Your task to perform on an android device: Add "razer deathadder" to the cart on bestbuy.com, then select checkout. Image 0: 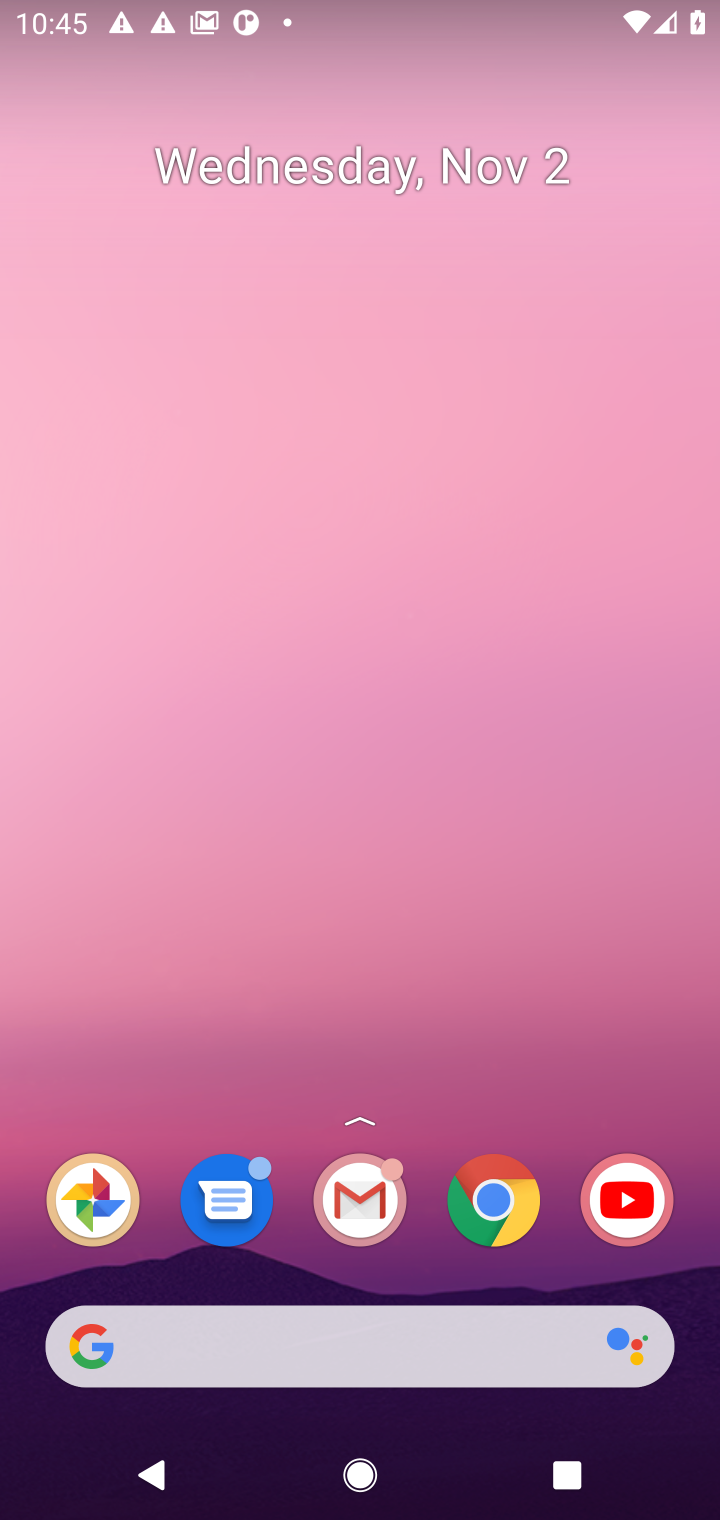
Step 0: press home button
Your task to perform on an android device: Add "razer deathadder" to the cart on bestbuy.com, then select checkout. Image 1: 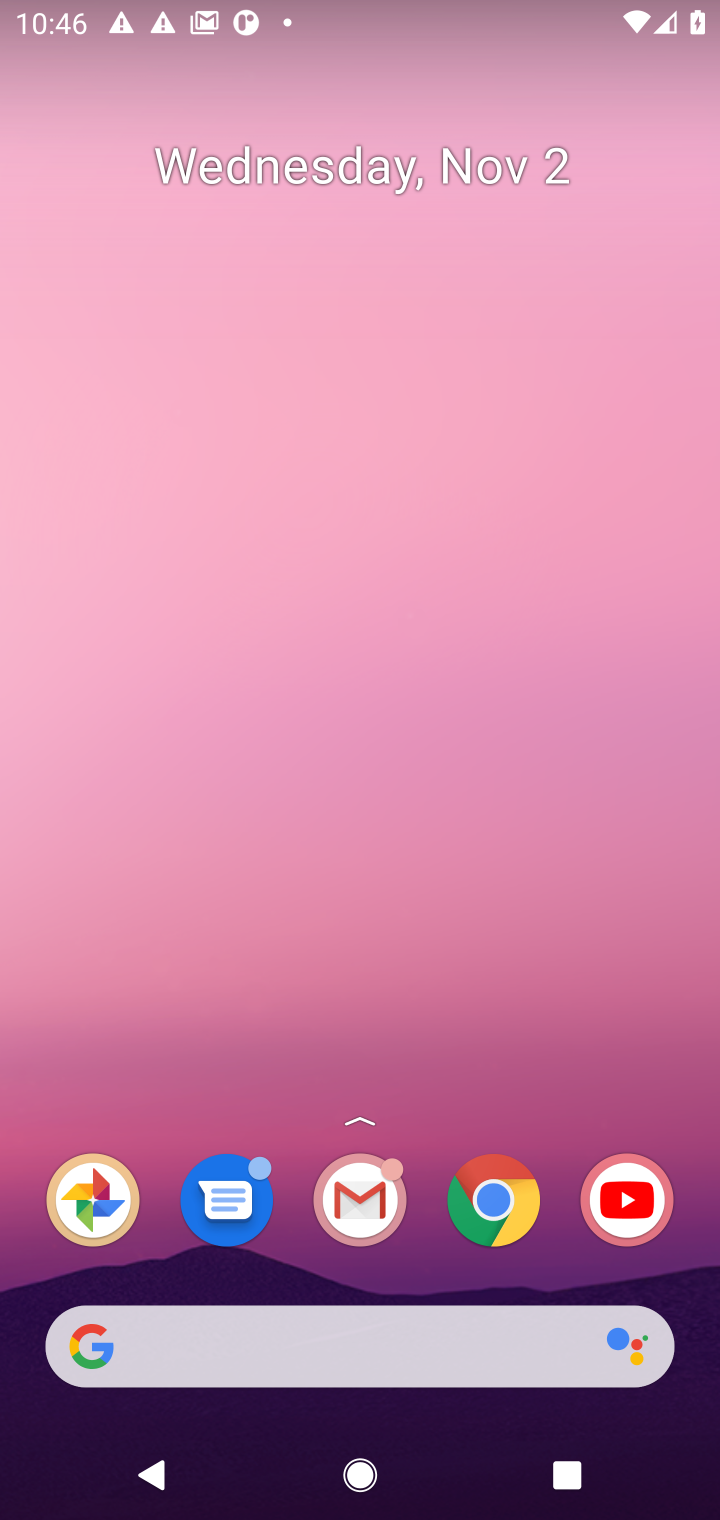
Step 1: click (492, 1195)
Your task to perform on an android device: Add "razer deathadder" to the cart on bestbuy.com, then select checkout. Image 2: 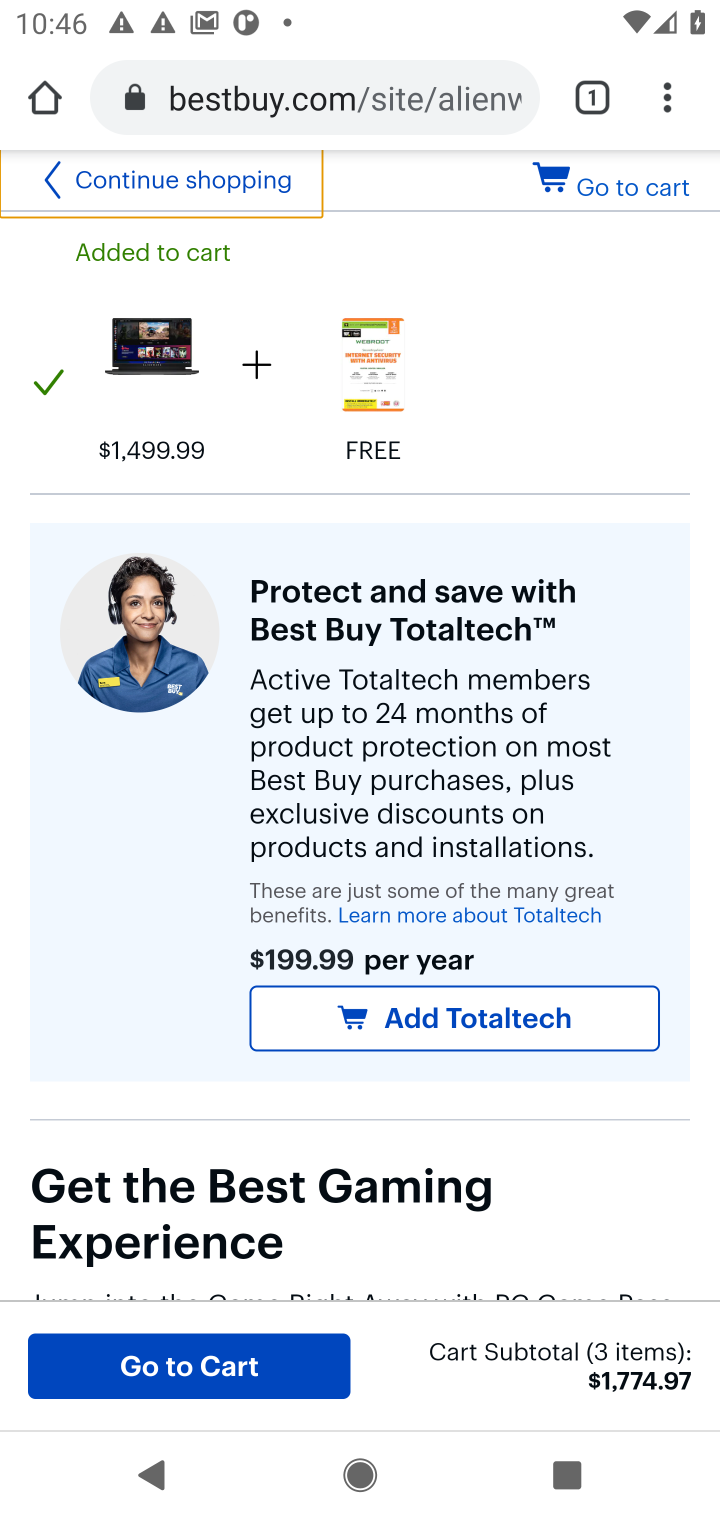
Step 2: drag from (502, 327) to (703, 267)
Your task to perform on an android device: Add "razer deathadder" to the cart on bestbuy.com, then select checkout. Image 3: 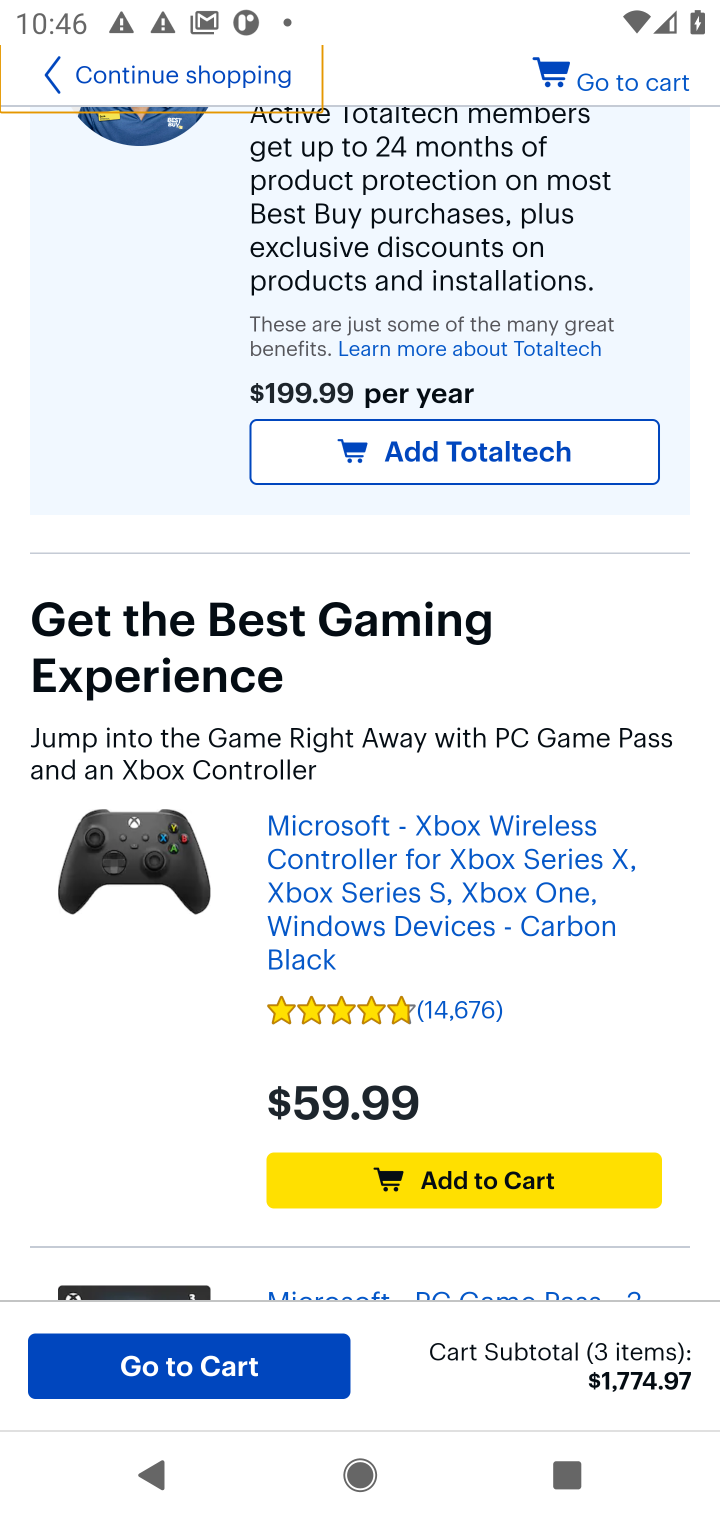
Step 3: drag from (533, 203) to (615, 943)
Your task to perform on an android device: Add "razer deathadder" to the cart on bestbuy.com, then select checkout. Image 4: 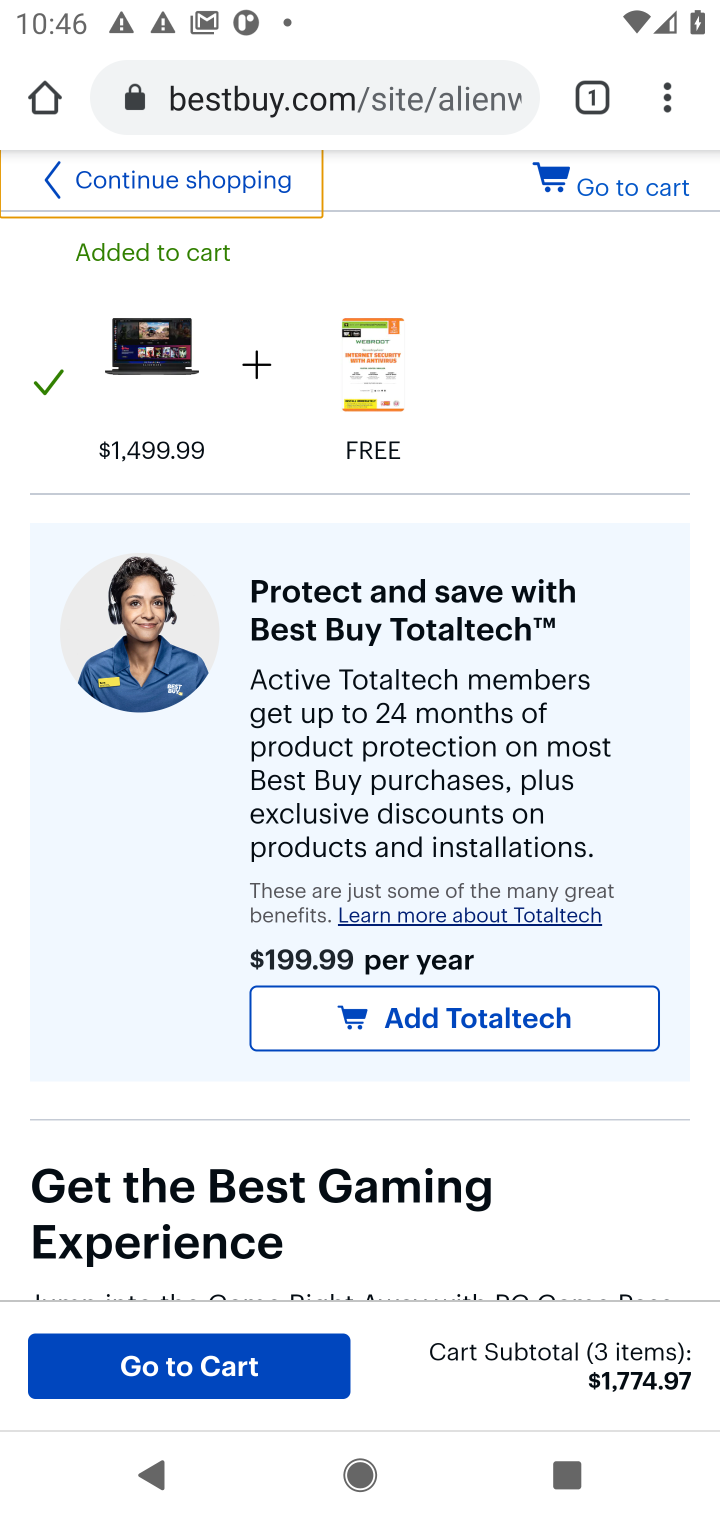
Step 4: drag from (462, 291) to (412, 953)
Your task to perform on an android device: Add "razer deathadder" to the cart on bestbuy.com, then select checkout. Image 5: 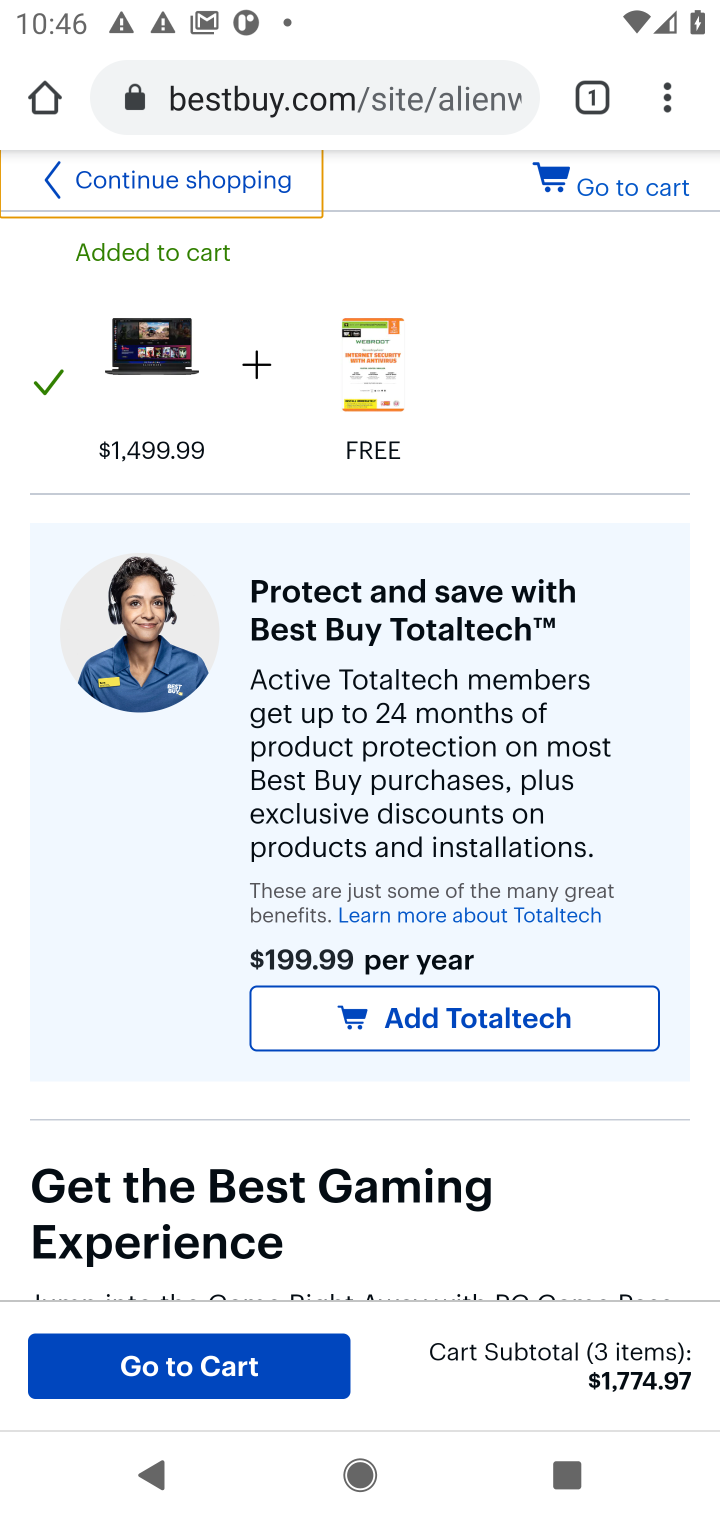
Step 5: drag from (454, 284) to (301, 1117)
Your task to perform on an android device: Add "razer deathadder" to the cart on bestbuy.com, then select checkout. Image 6: 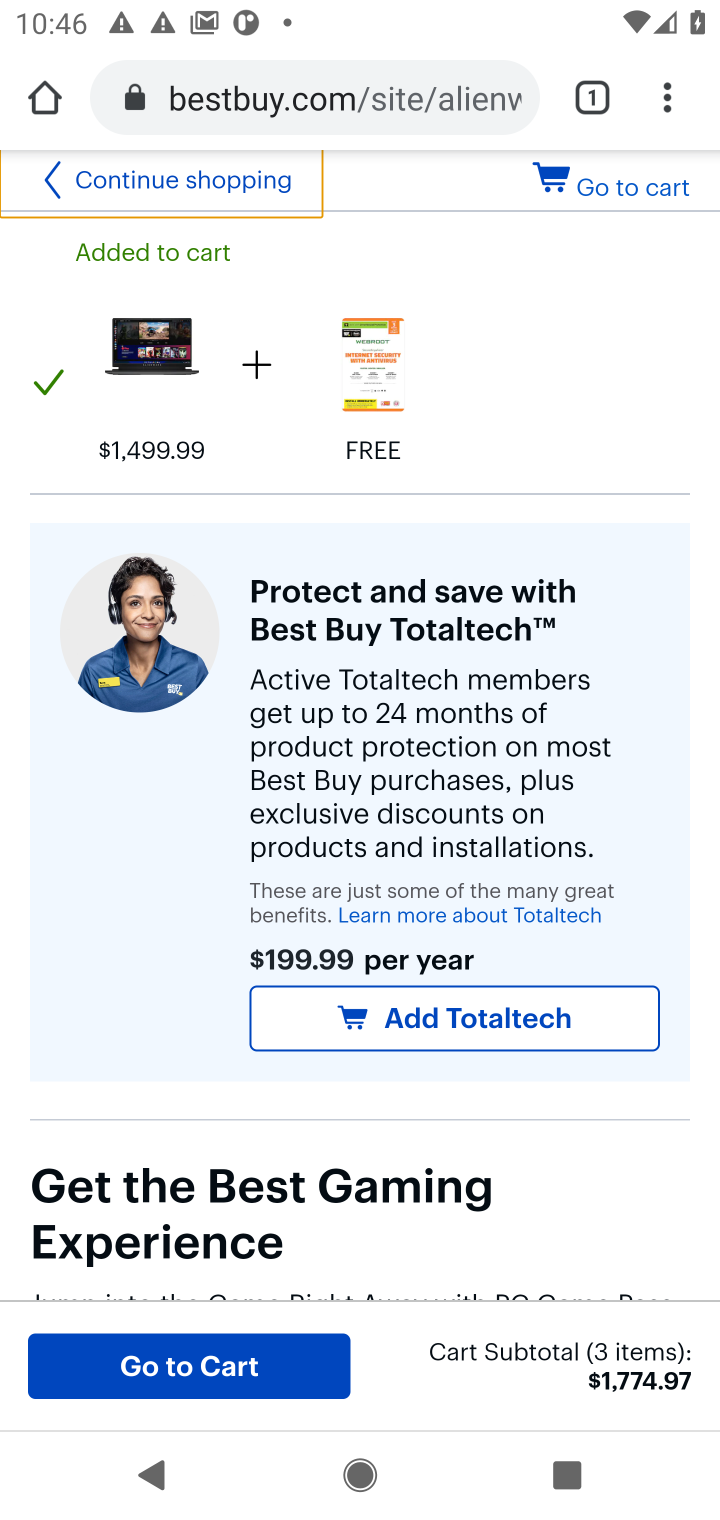
Step 6: click (419, 91)
Your task to perform on an android device: Add "razer deathadder" to the cart on bestbuy.com, then select checkout. Image 7: 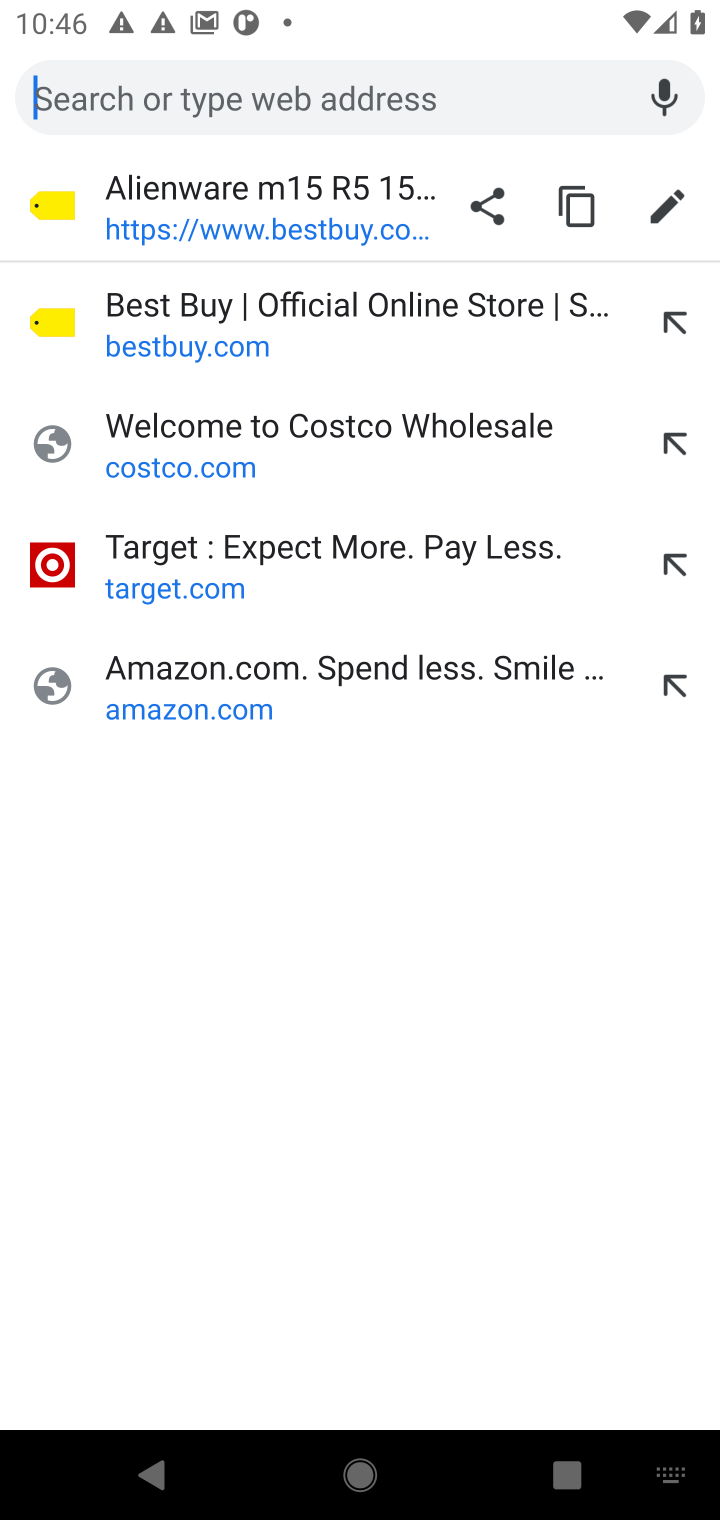
Step 7: click (246, 317)
Your task to perform on an android device: Add "razer deathadder" to the cart on bestbuy.com, then select checkout. Image 8: 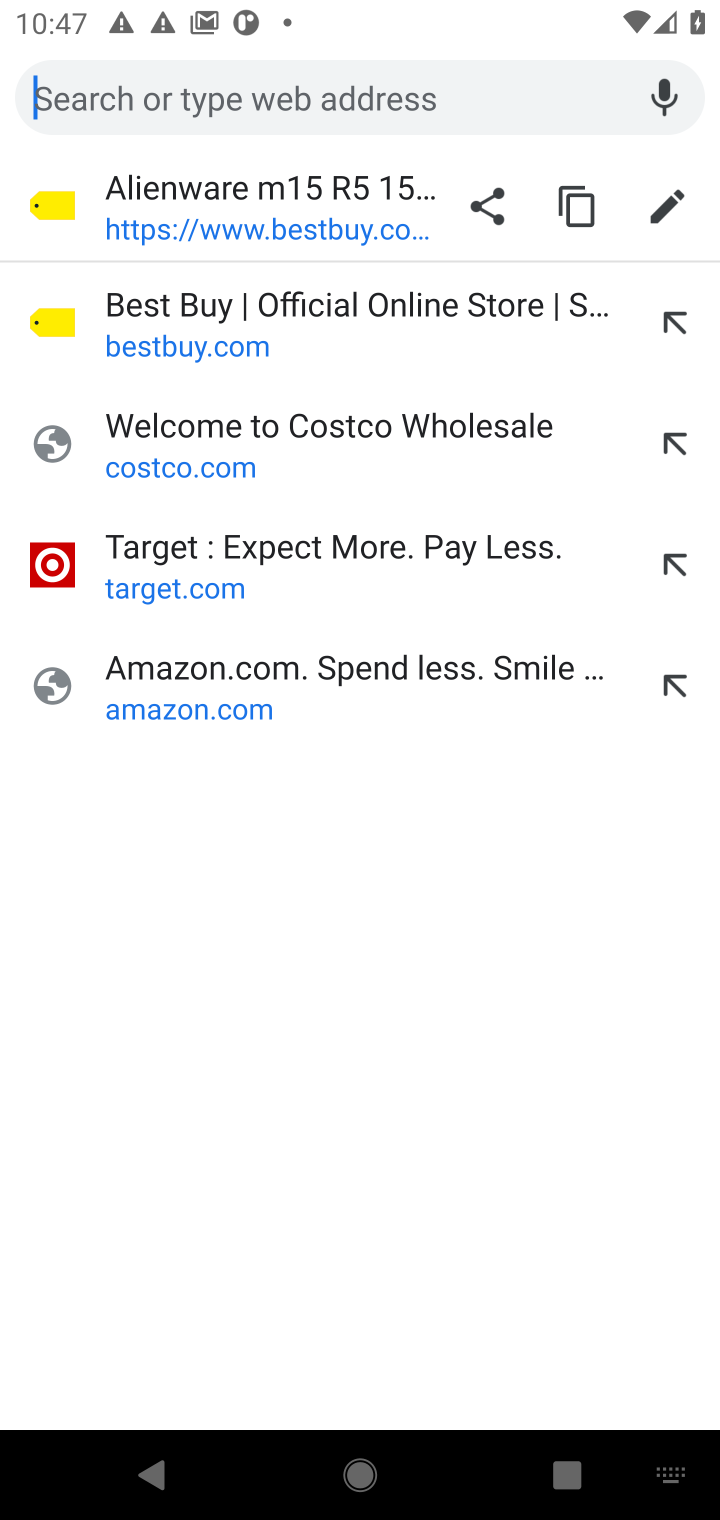
Step 8: type "razer deathadder"
Your task to perform on an android device: Add "razer deathadder" to the cart on bestbuy.com, then select checkout. Image 9: 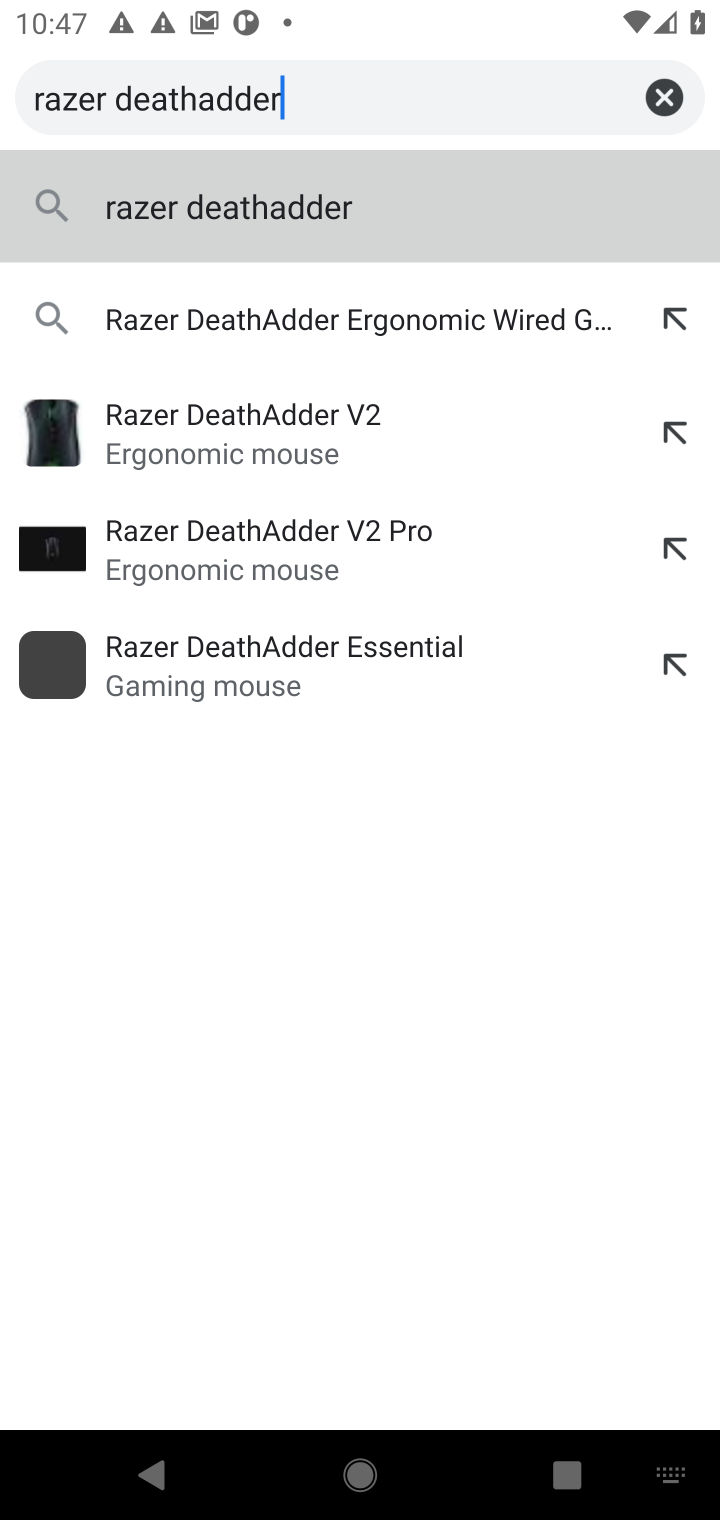
Step 9: press enter
Your task to perform on an android device: Add "razer deathadder" to the cart on bestbuy.com, then select checkout. Image 10: 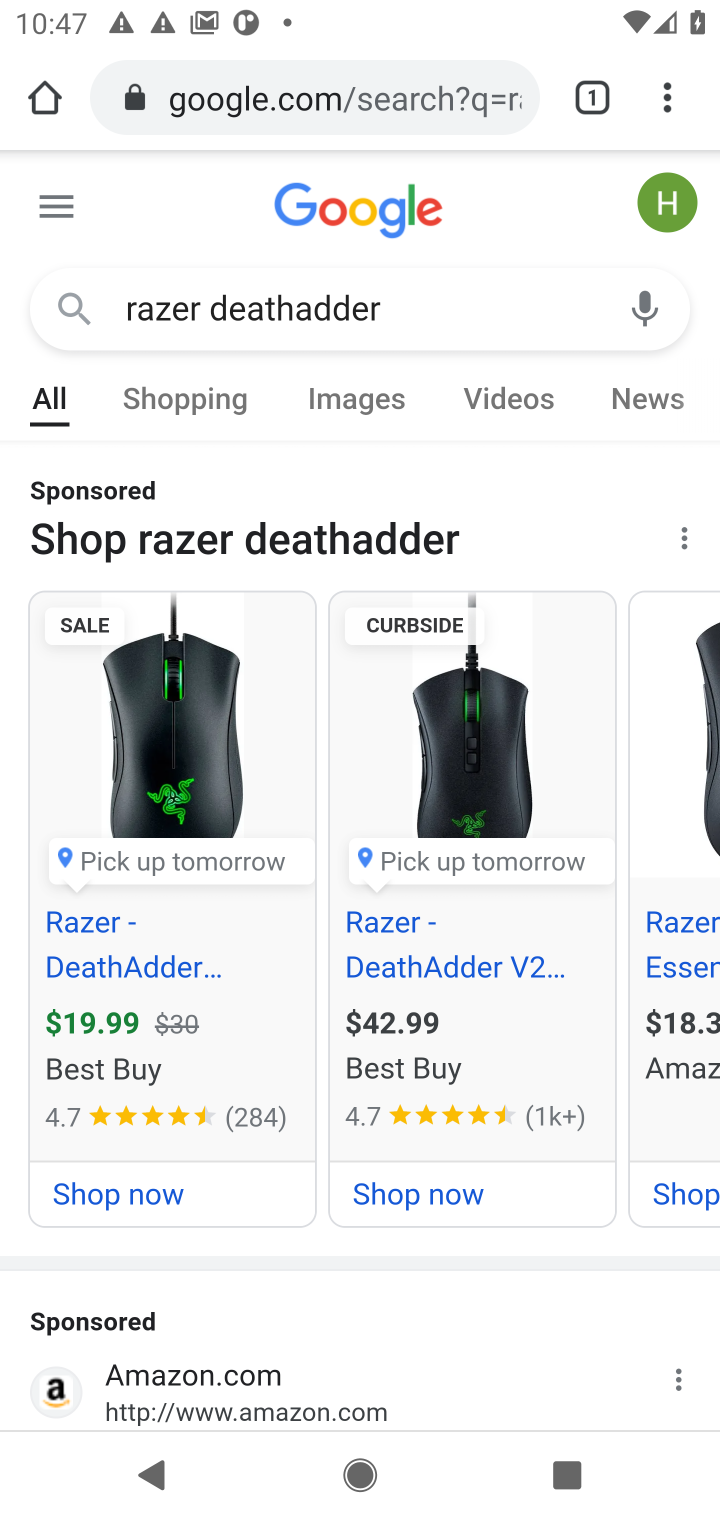
Step 10: drag from (376, 1220) to (384, 754)
Your task to perform on an android device: Add "razer deathadder" to the cart on bestbuy.com, then select checkout. Image 11: 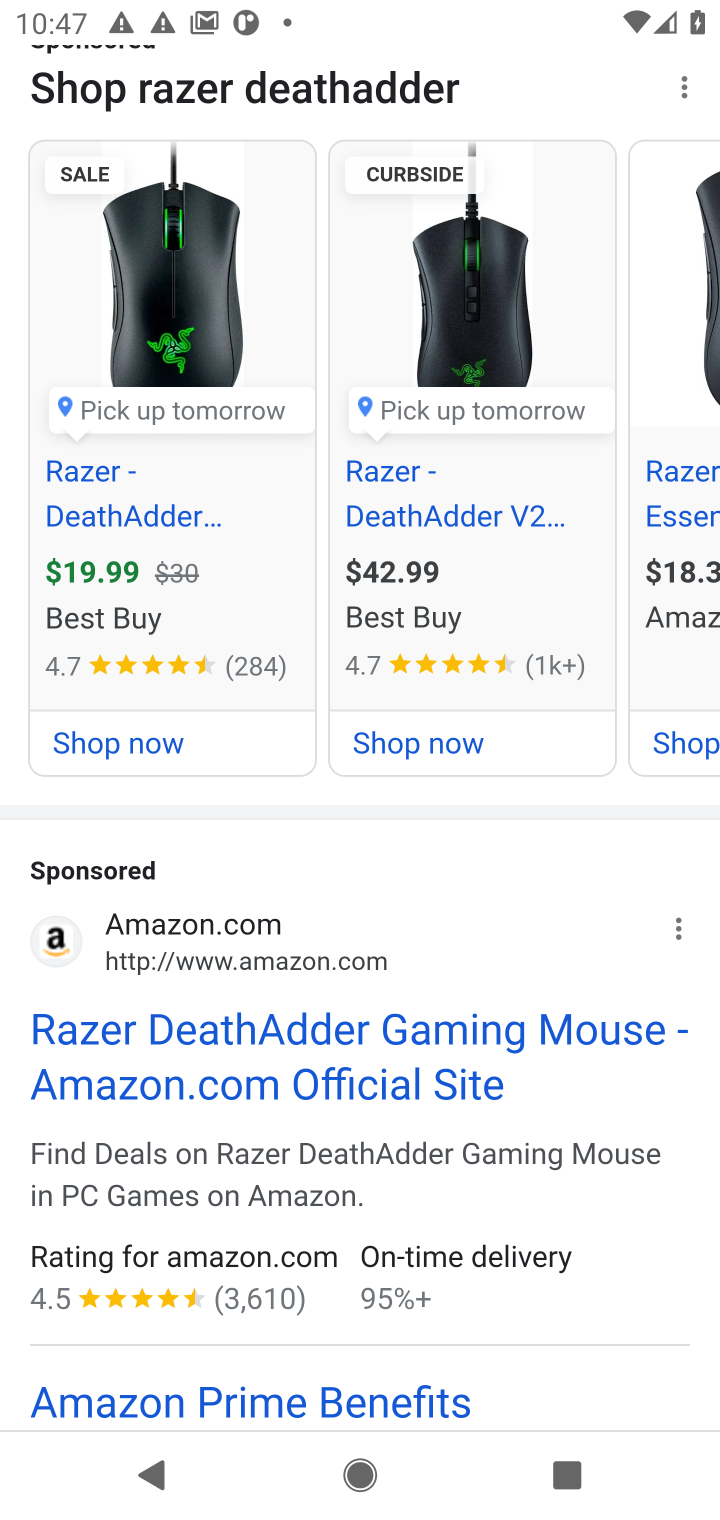
Step 11: drag from (494, 646) to (550, 1323)
Your task to perform on an android device: Add "razer deathadder" to the cart on bestbuy.com, then select checkout. Image 12: 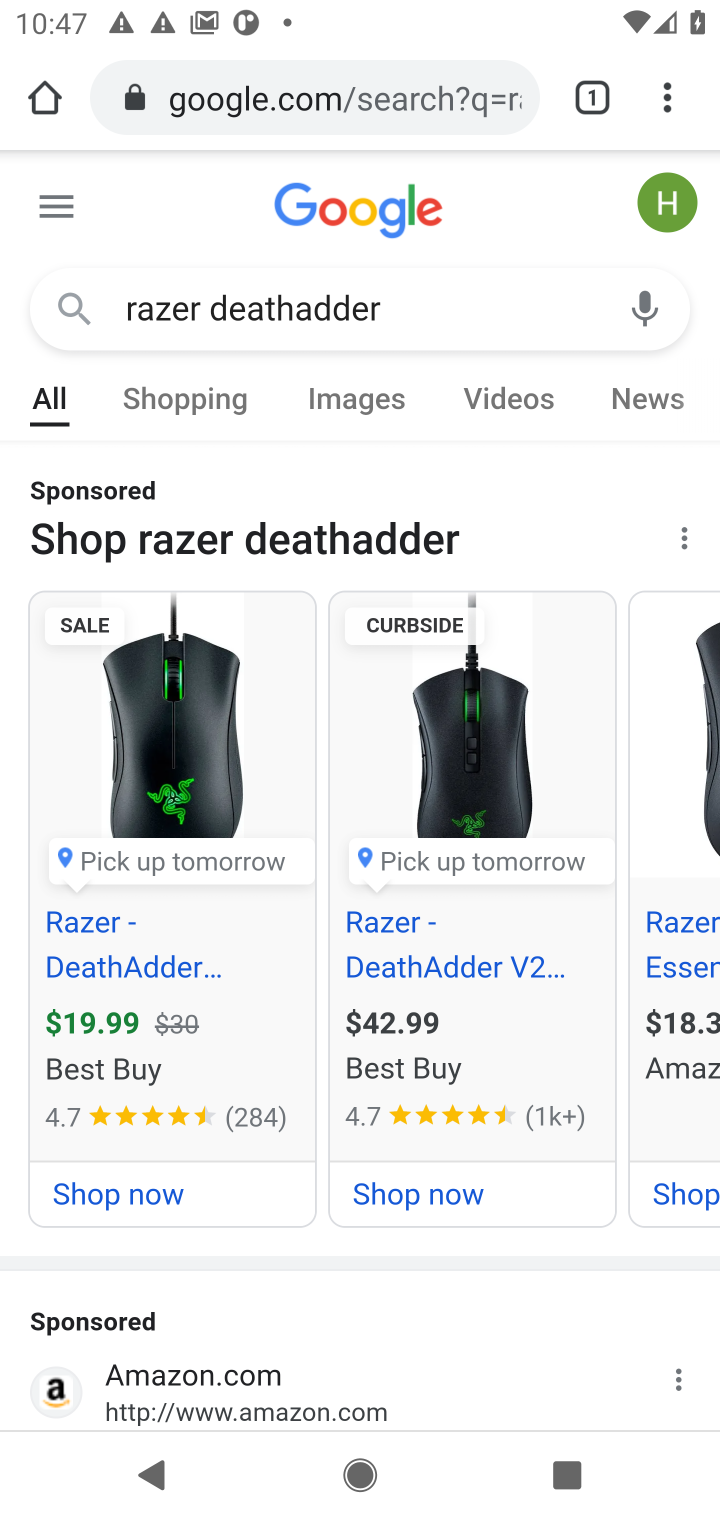
Step 12: click (425, 97)
Your task to perform on an android device: Add "razer deathadder" to the cart on bestbuy.com, then select checkout. Image 13: 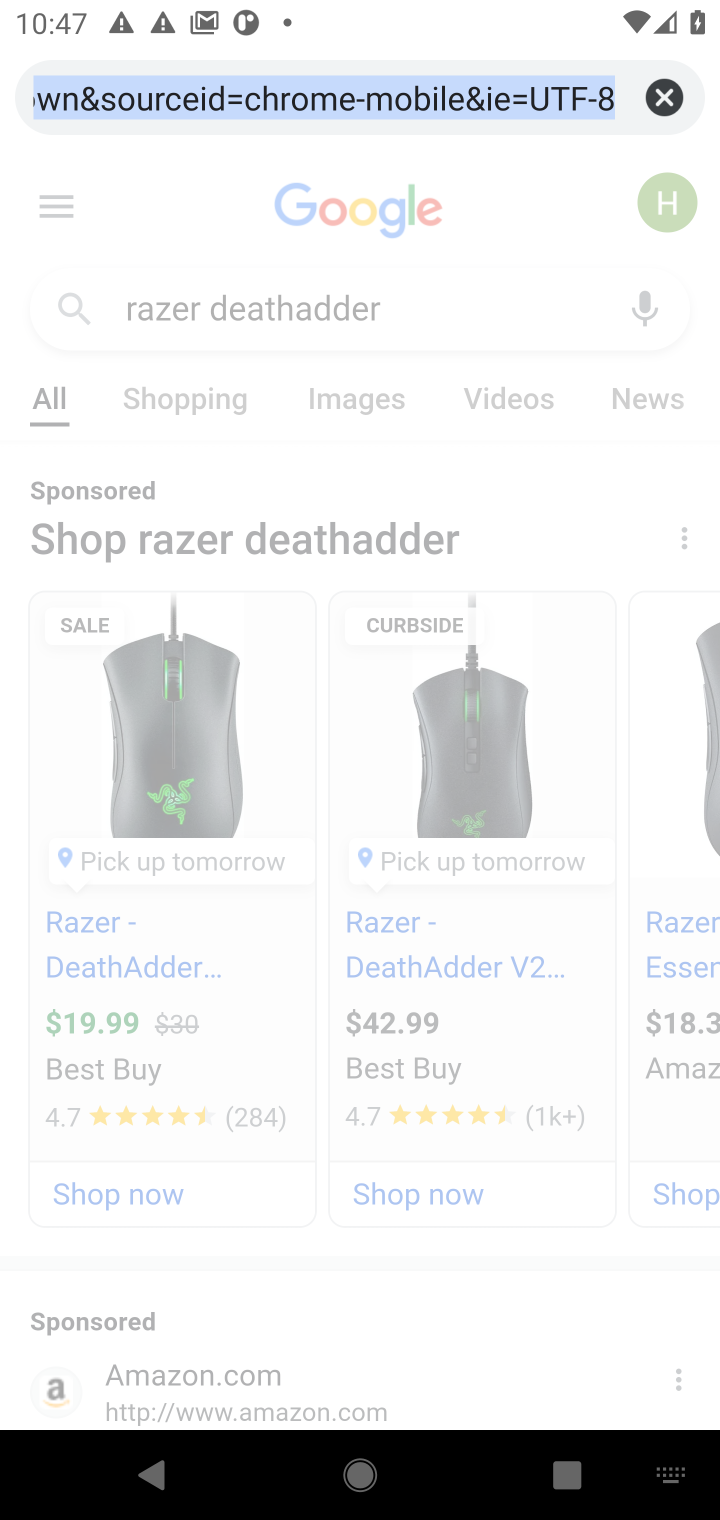
Step 13: click (675, 103)
Your task to perform on an android device: Add "razer deathadder" to the cart on bestbuy.com, then select checkout. Image 14: 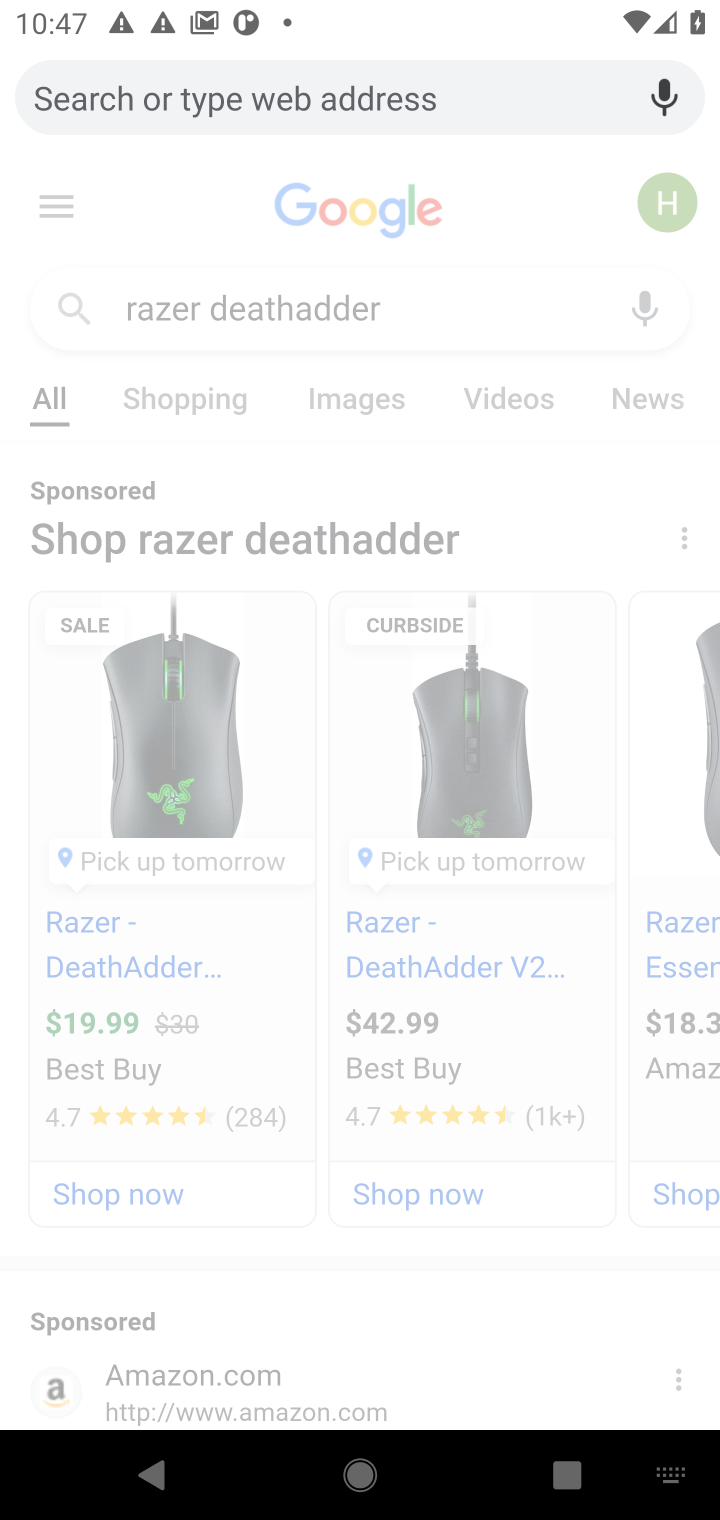
Step 14: type "bestbuy.com"
Your task to perform on an android device: Add "razer deathadder" to the cart on bestbuy.com, then select checkout. Image 15: 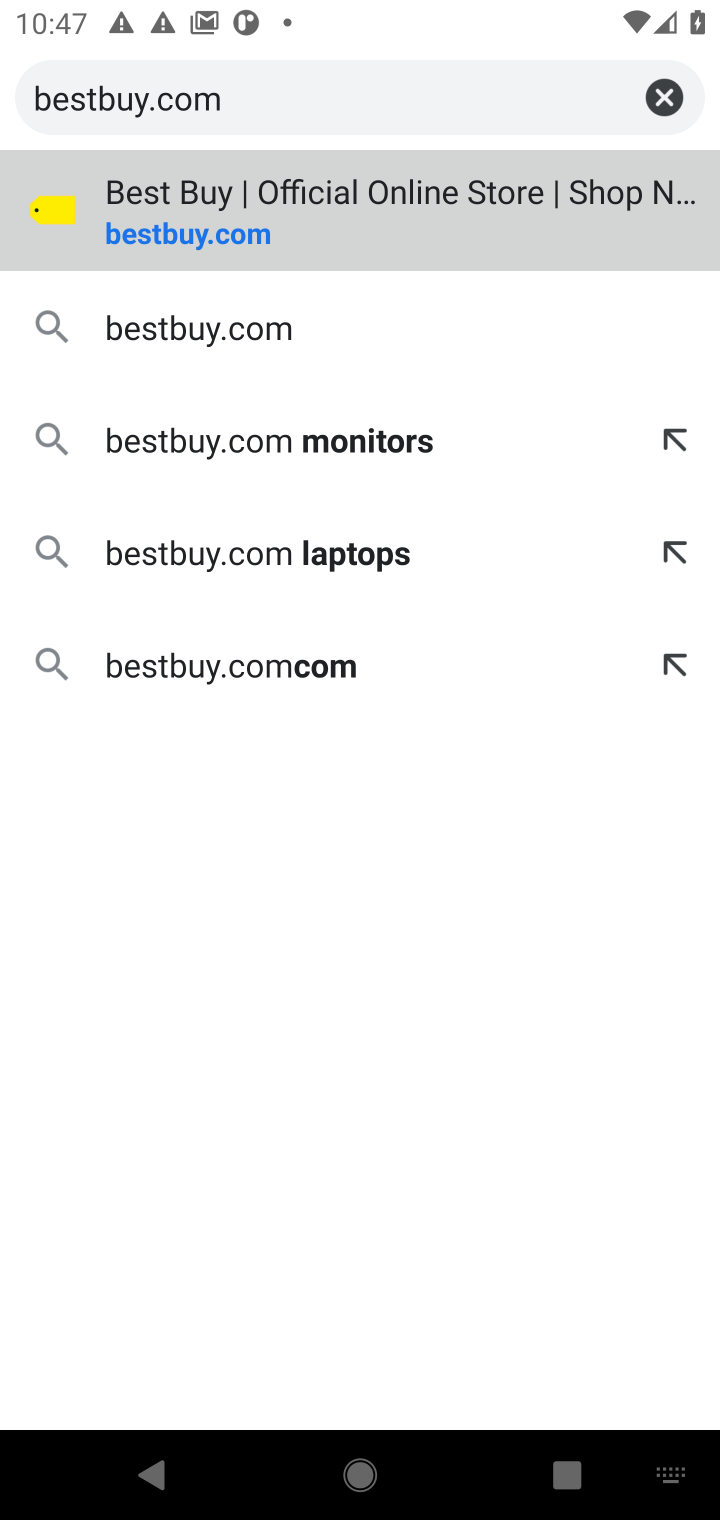
Step 15: press enter
Your task to perform on an android device: Add "razer deathadder" to the cart on bestbuy.com, then select checkout. Image 16: 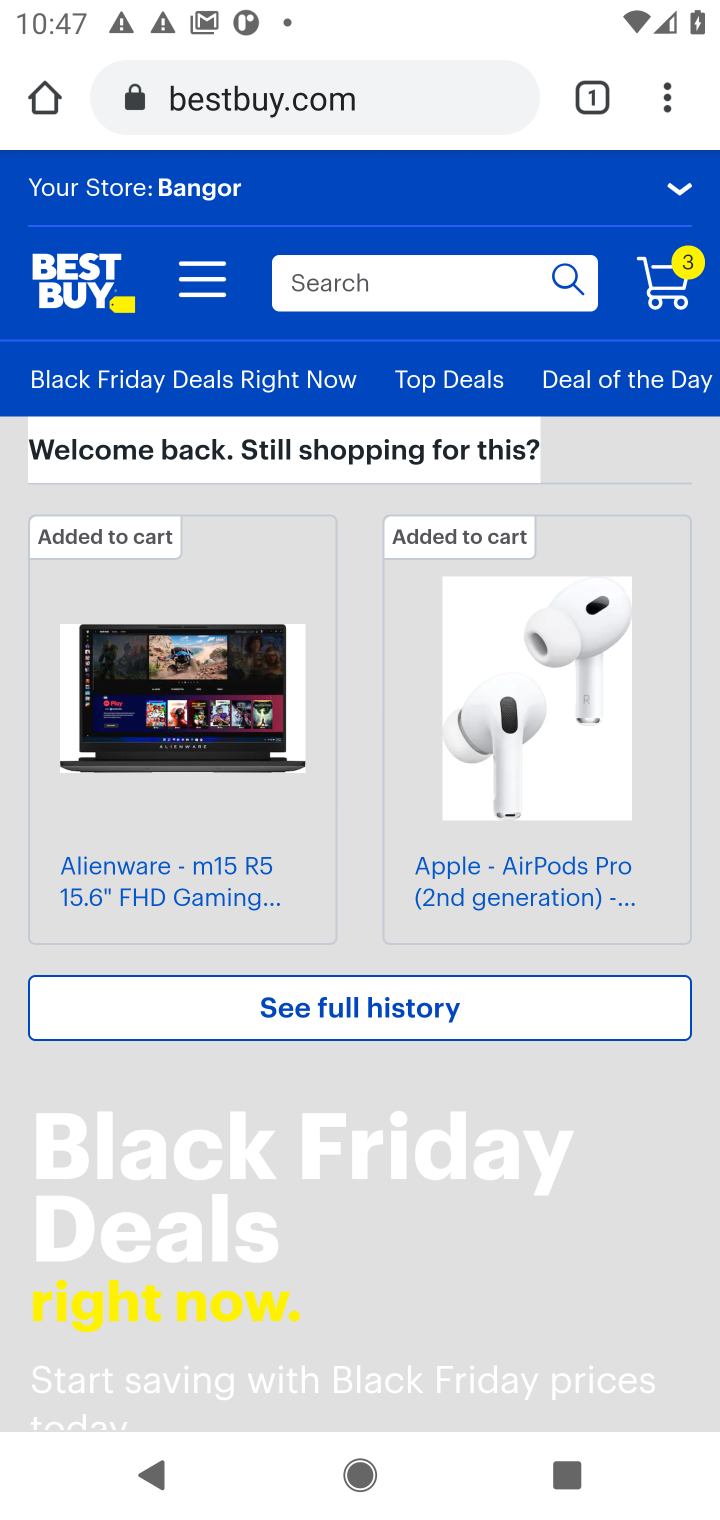
Step 16: click (436, 285)
Your task to perform on an android device: Add "razer deathadder" to the cart on bestbuy.com, then select checkout. Image 17: 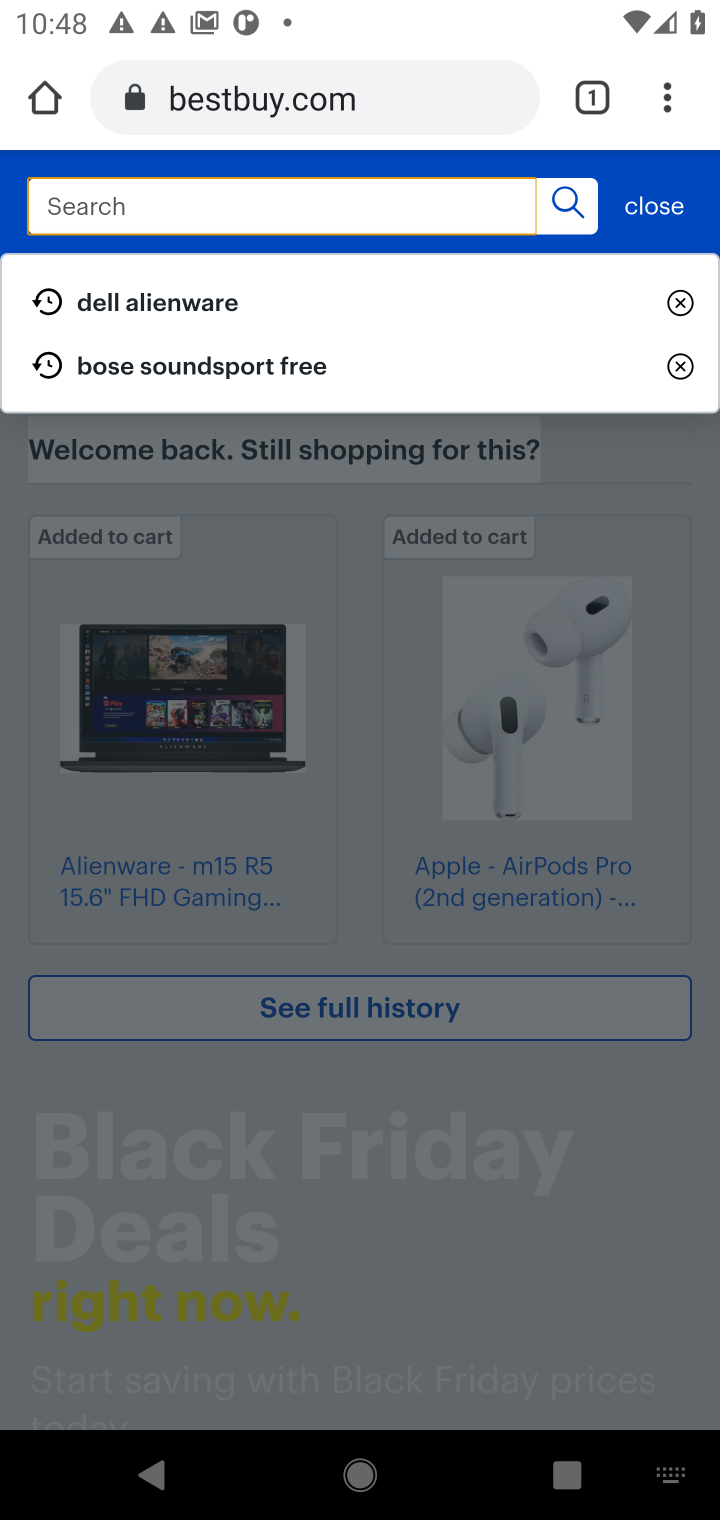
Step 17: click (235, 197)
Your task to perform on an android device: Add "razer deathadder" to the cart on bestbuy.com, then select checkout. Image 18: 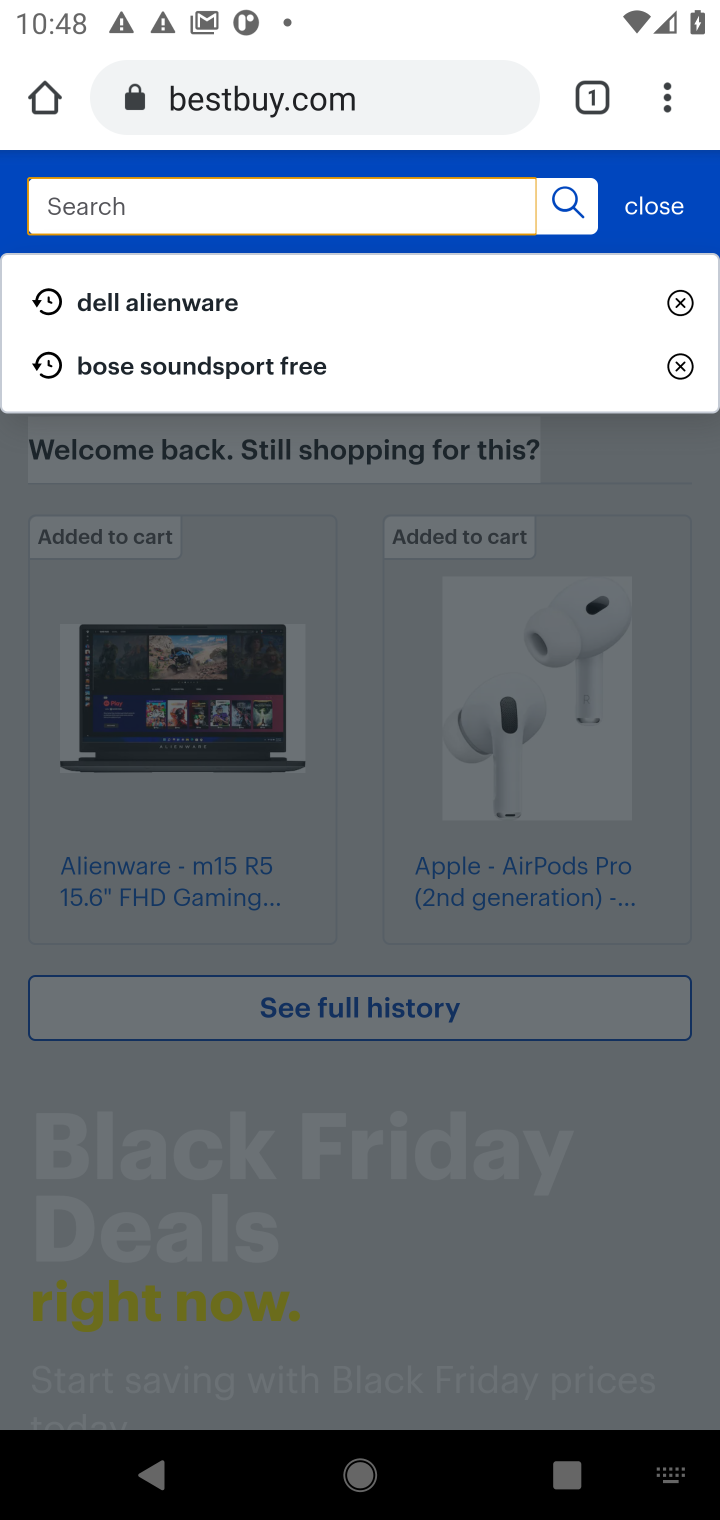
Step 18: type "razer deathadder"
Your task to perform on an android device: Add "razer deathadder" to the cart on bestbuy.com, then select checkout. Image 19: 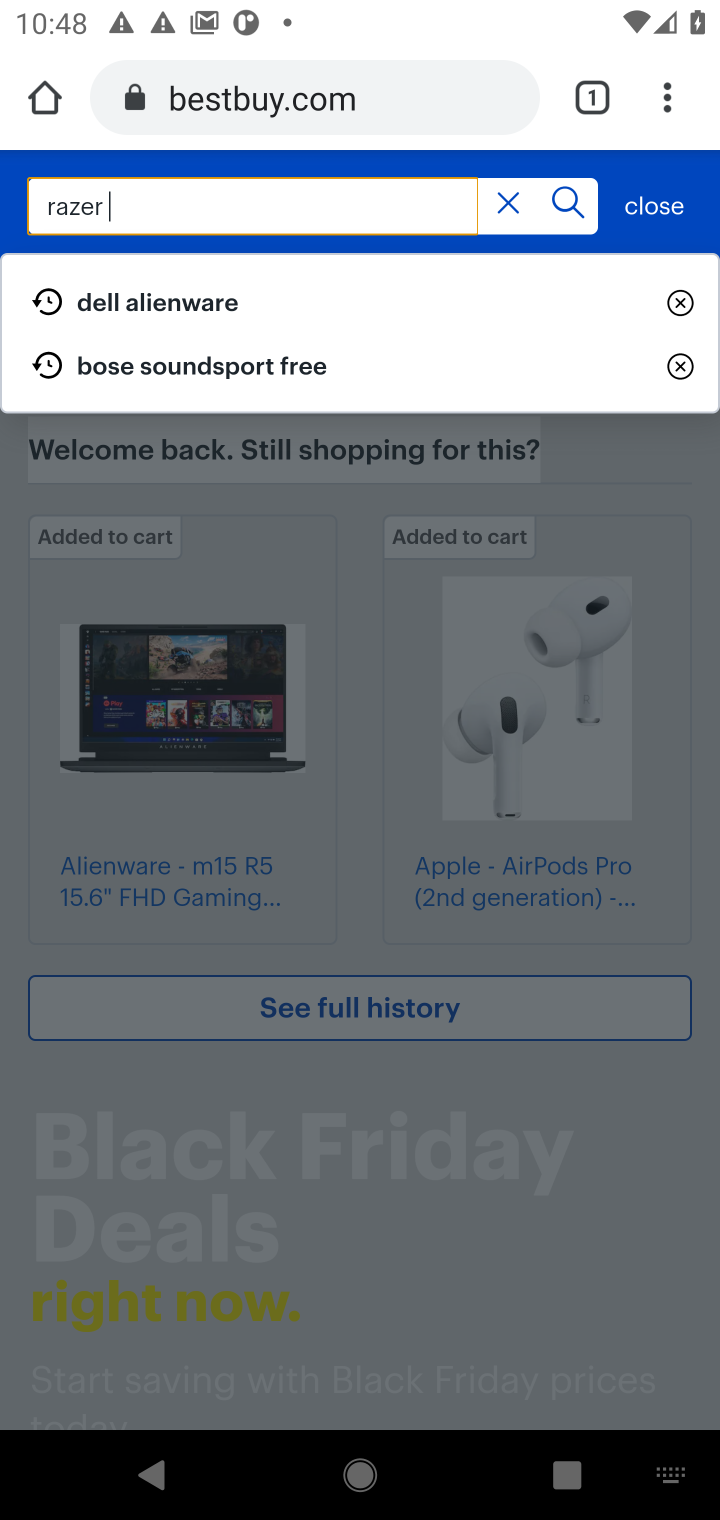
Step 19: press enter
Your task to perform on an android device: Add "razer deathadder" to the cart on bestbuy.com, then select checkout. Image 20: 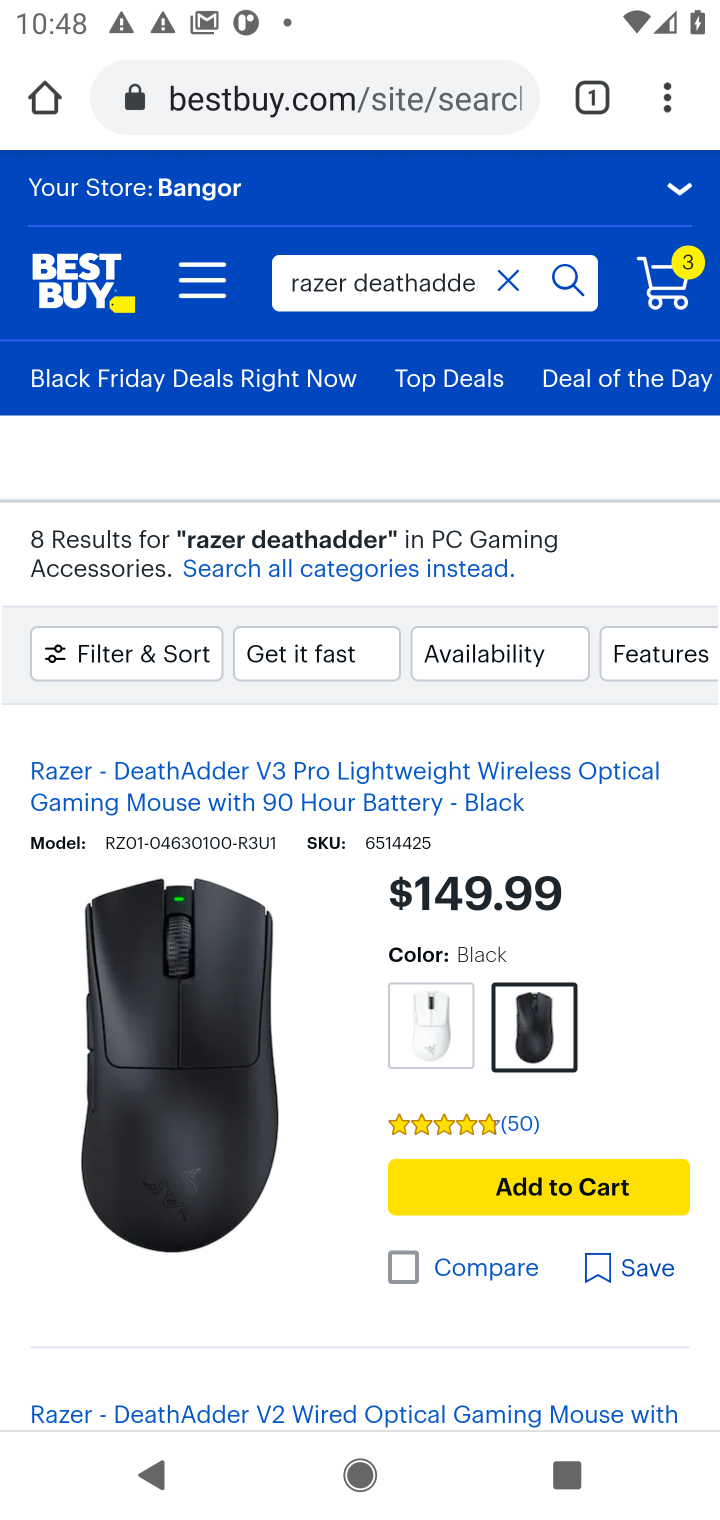
Step 20: drag from (388, 1289) to (474, 687)
Your task to perform on an android device: Add "razer deathadder" to the cart on bestbuy.com, then select checkout. Image 21: 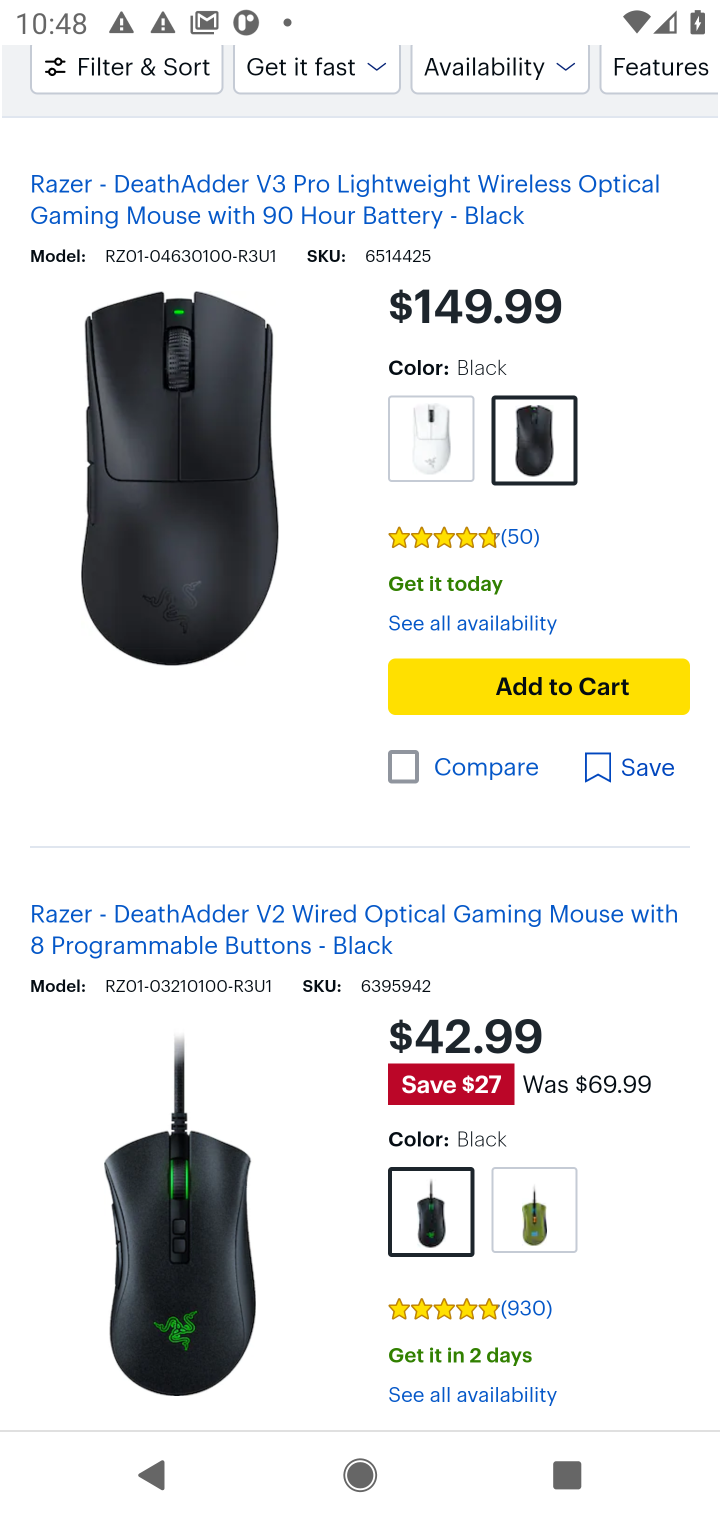
Step 21: drag from (294, 1245) to (352, 832)
Your task to perform on an android device: Add "razer deathadder" to the cart on bestbuy.com, then select checkout. Image 22: 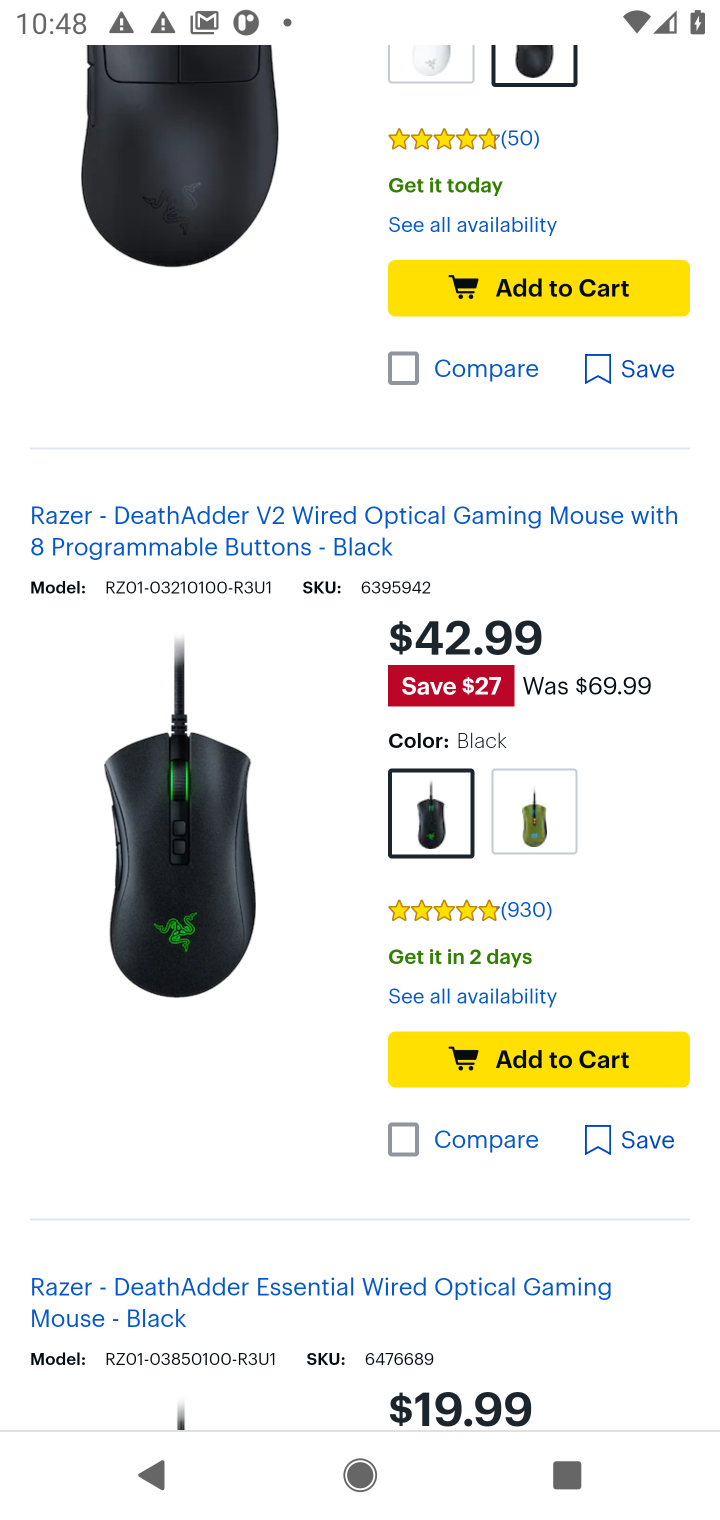
Step 22: click (140, 1287)
Your task to perform on an android device: Add "razer deathadder" to the cart on bestbuy.com, then select checkout. Image 23: 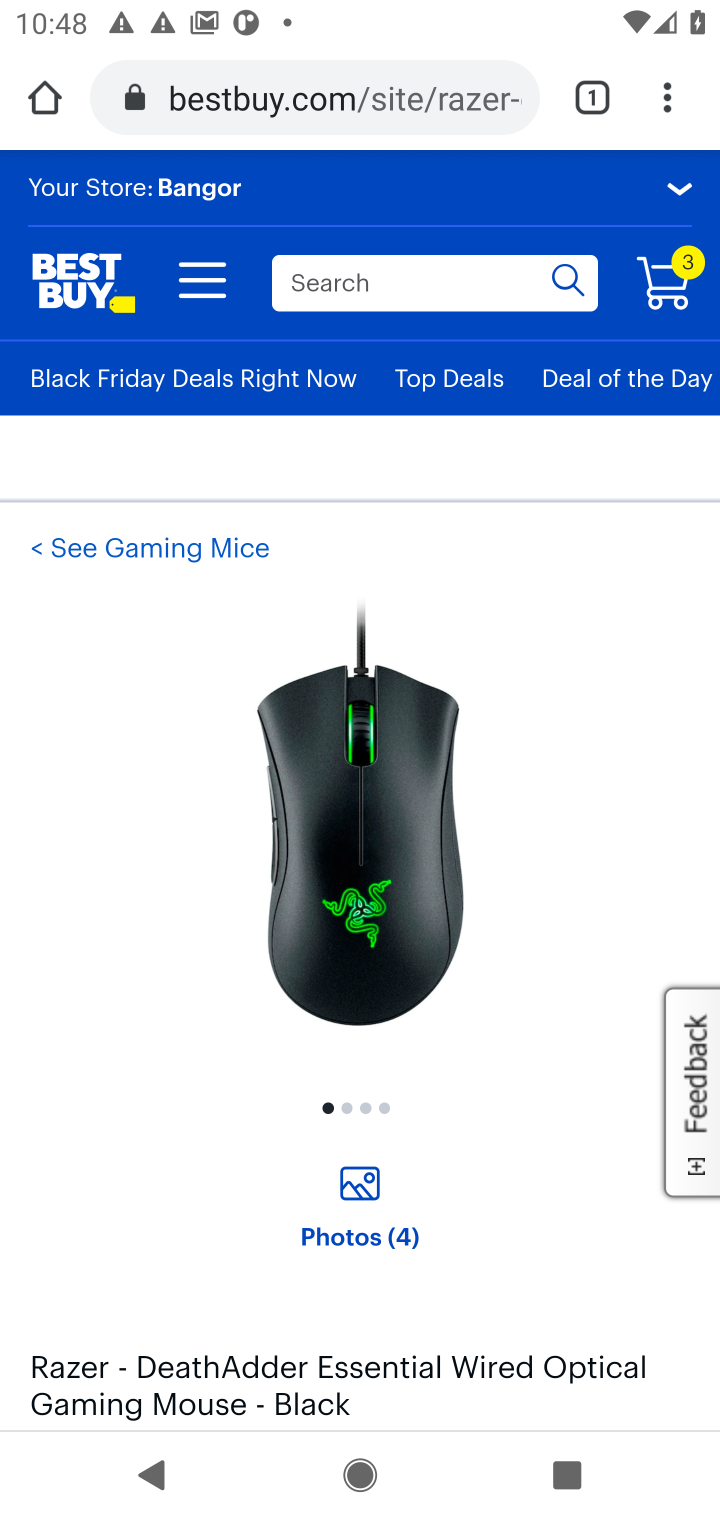
Step 23: drag from (420, 981) to (474, 658)
Your task to perform on an android device: Add "razer deathadder" to the cart on bestbuy.com, then select checkout. Image 24: 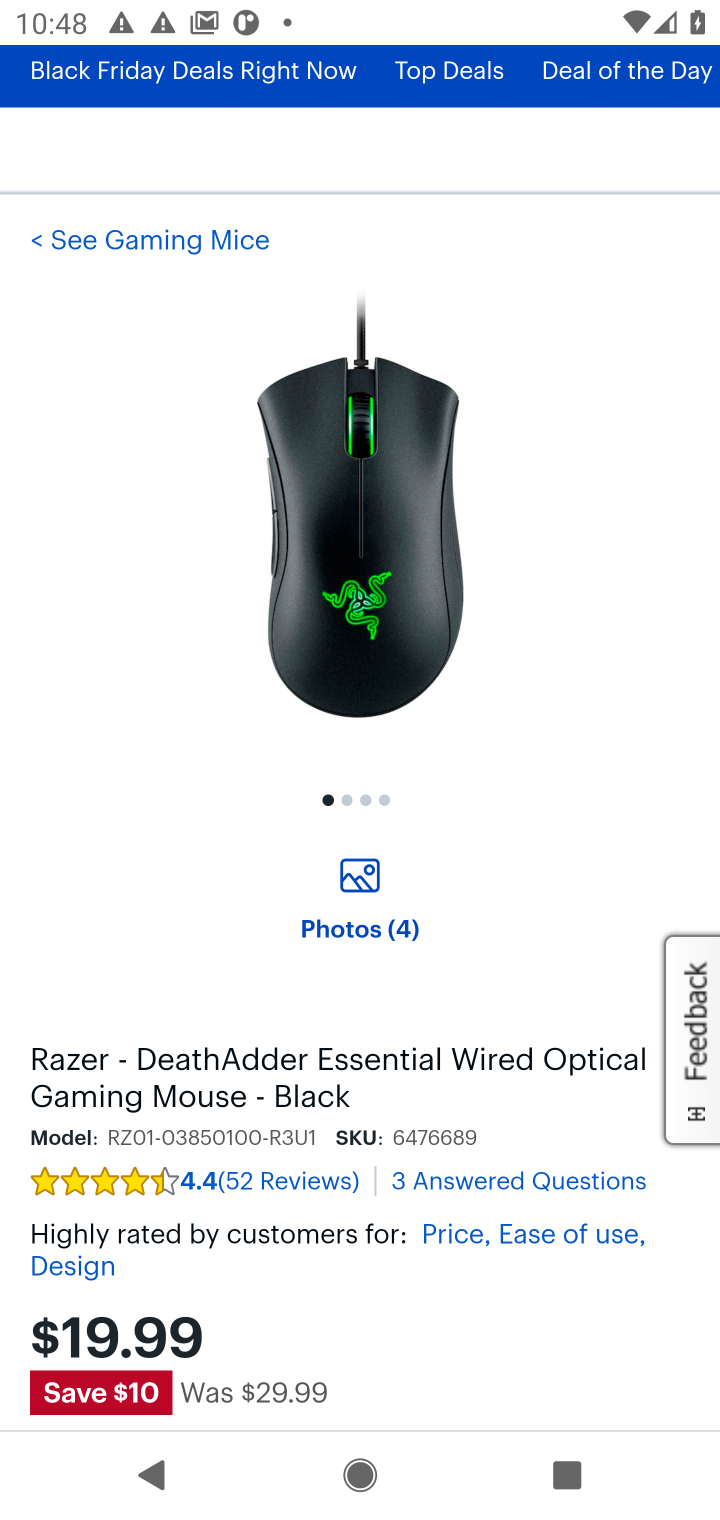
Step 24: drag from (566, 1316) to (519, 604)
Your task to perform on an android device: Add "razer deathadder" to the cart on bestbuy.com, then select checkout. Image 25: 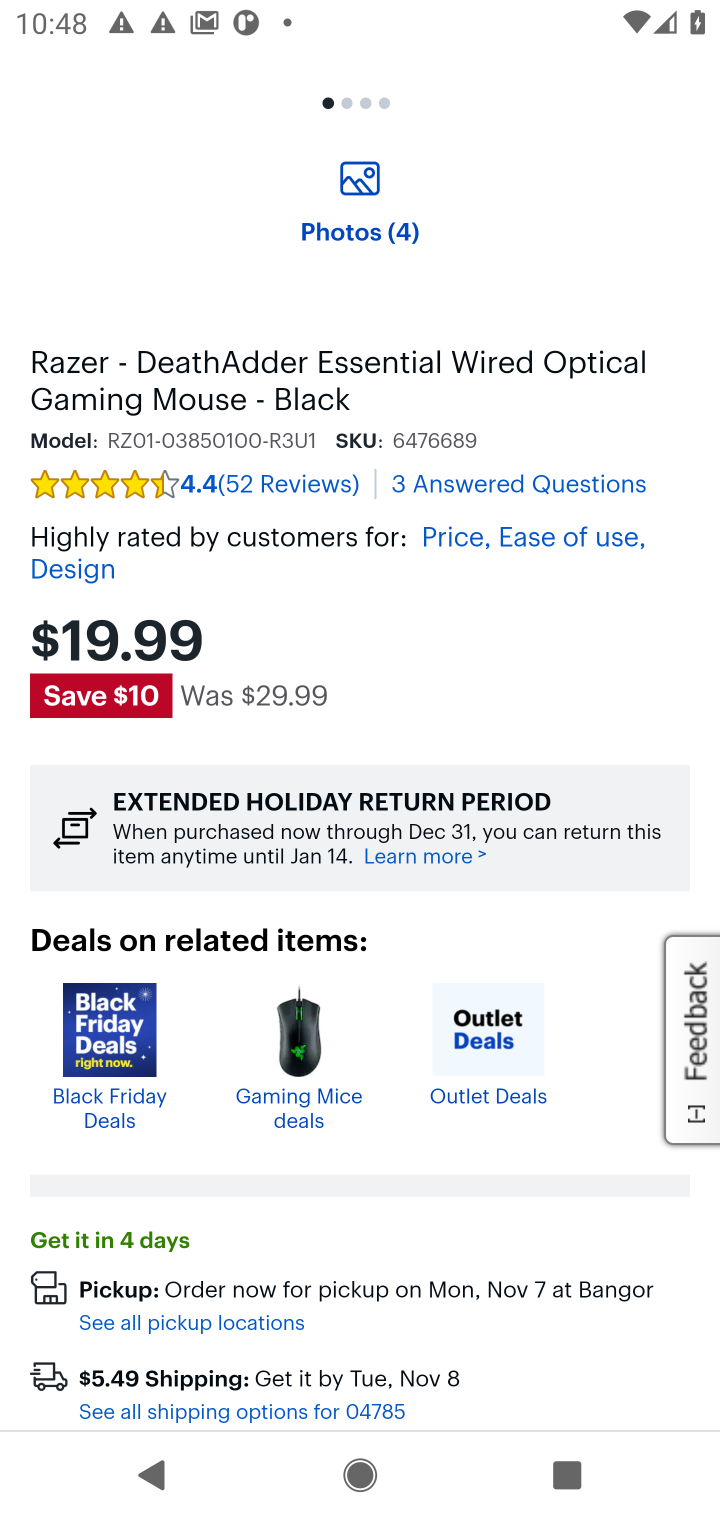
Step 25: drag from (491, 577) to (478, 476)
Your task to perform on an android device: Add "razer deathadder" to the cart on bestbuy.com, then select checkout. Image 26: 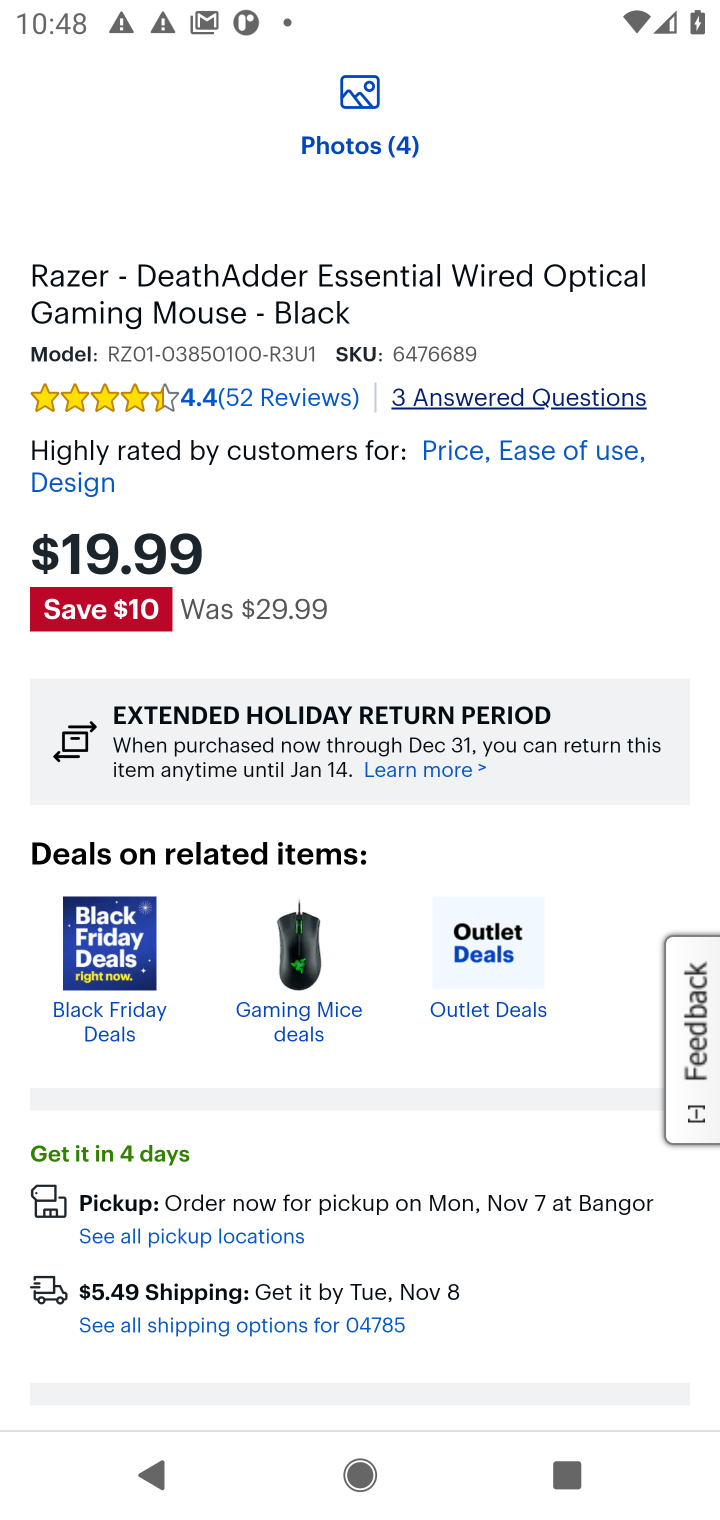
Step 26: drag from (572, 1289) to (595, 798)
Your task to perform on an android device: Add "razer deathadder" to the cart on bestbuy.com, then select checkout. Image 27: 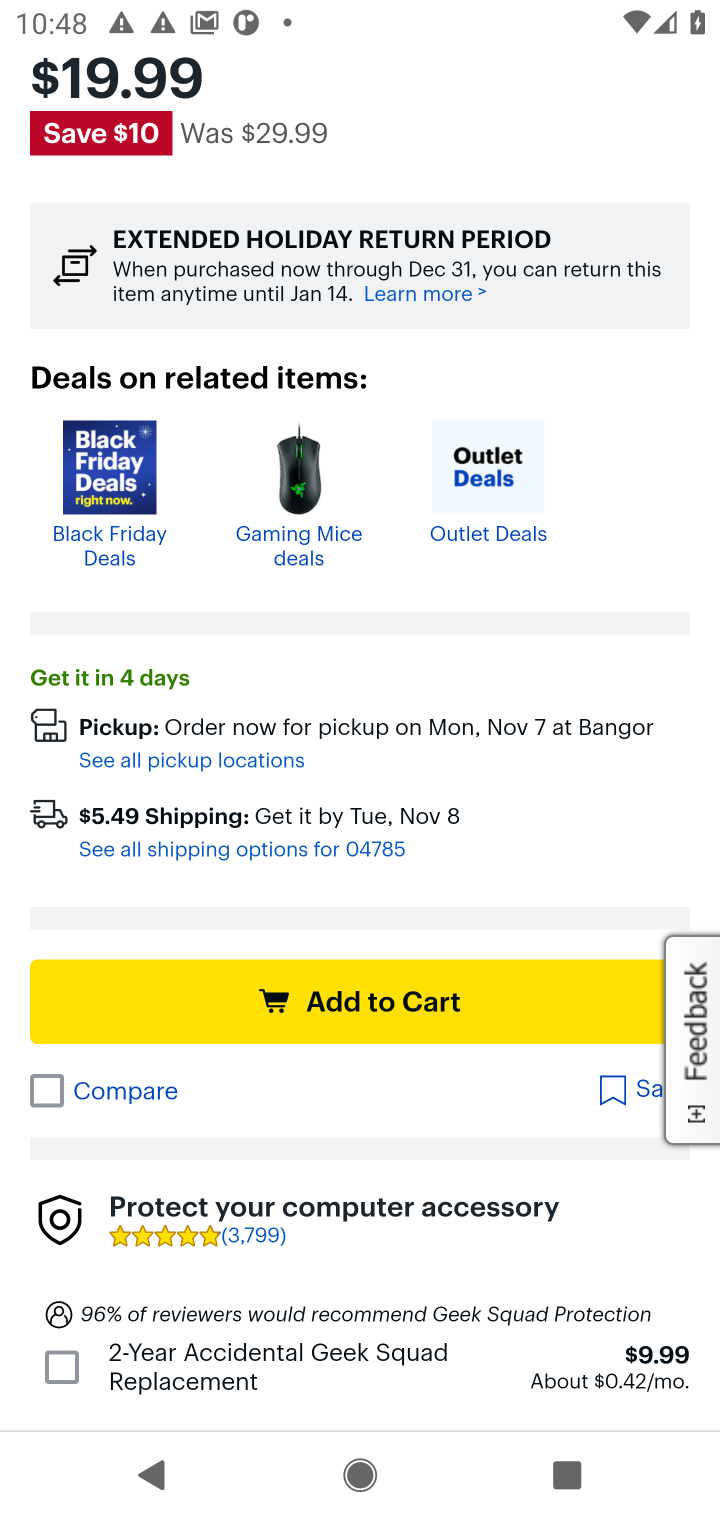
Step 27: click (393, 1008)
Your task to perform on an android device: Add "razer deathadder" to the cart on bestbuy.com, then select checkout. Image 28: 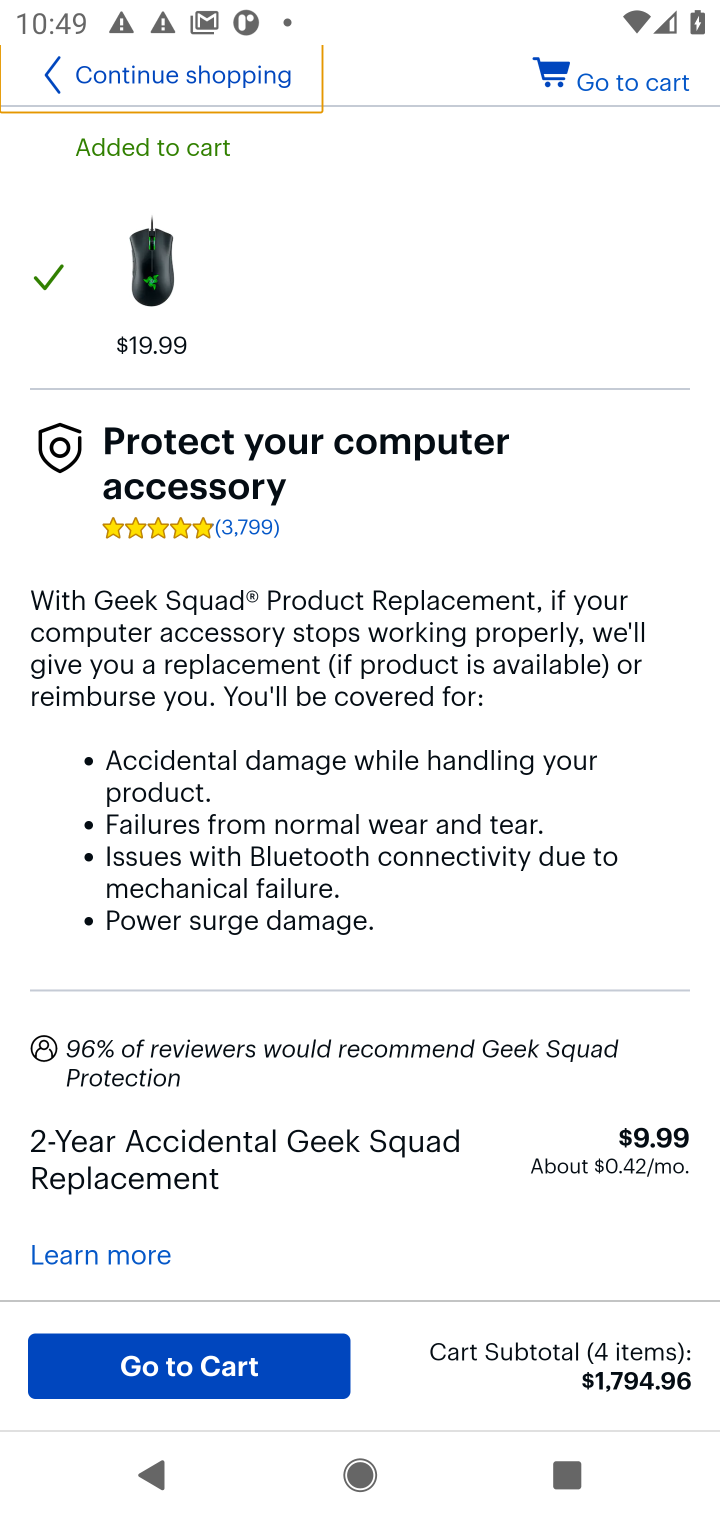
Step 28: click (249, 1367)
Your task to perform on an android device: Add "razer deathadder" to the cart on bestbuy.com, then select checkout. Image 29: 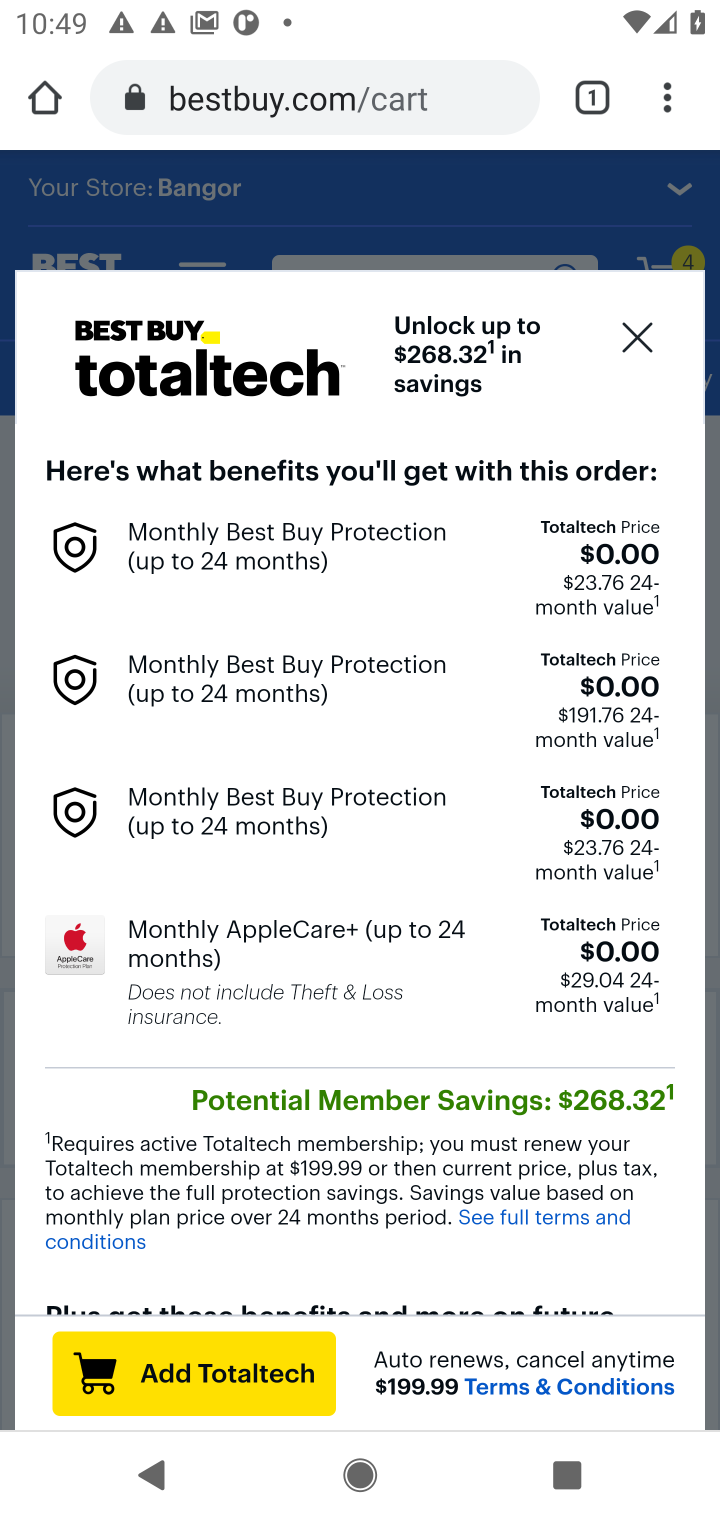
Step 29: click (629, 330)
Your task to perform on an android device: Add "razer deathadder" to the cart on bestbuy.com, then select checkout. Image 30: 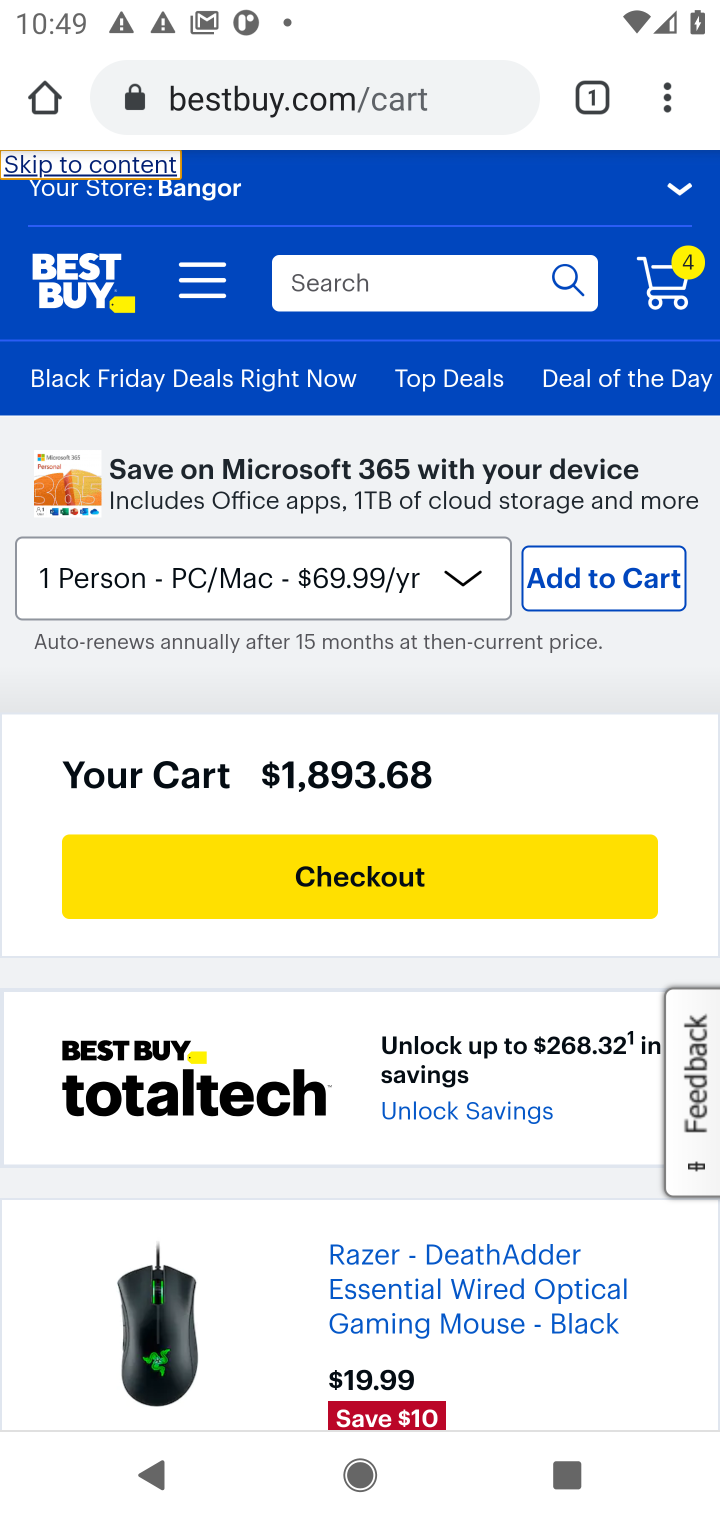
Step 30: click (399, 857)
Your task to perform on an android device: Add "razer deathadder" to the cart on bestbuy.com, then select checkout. Image 31: 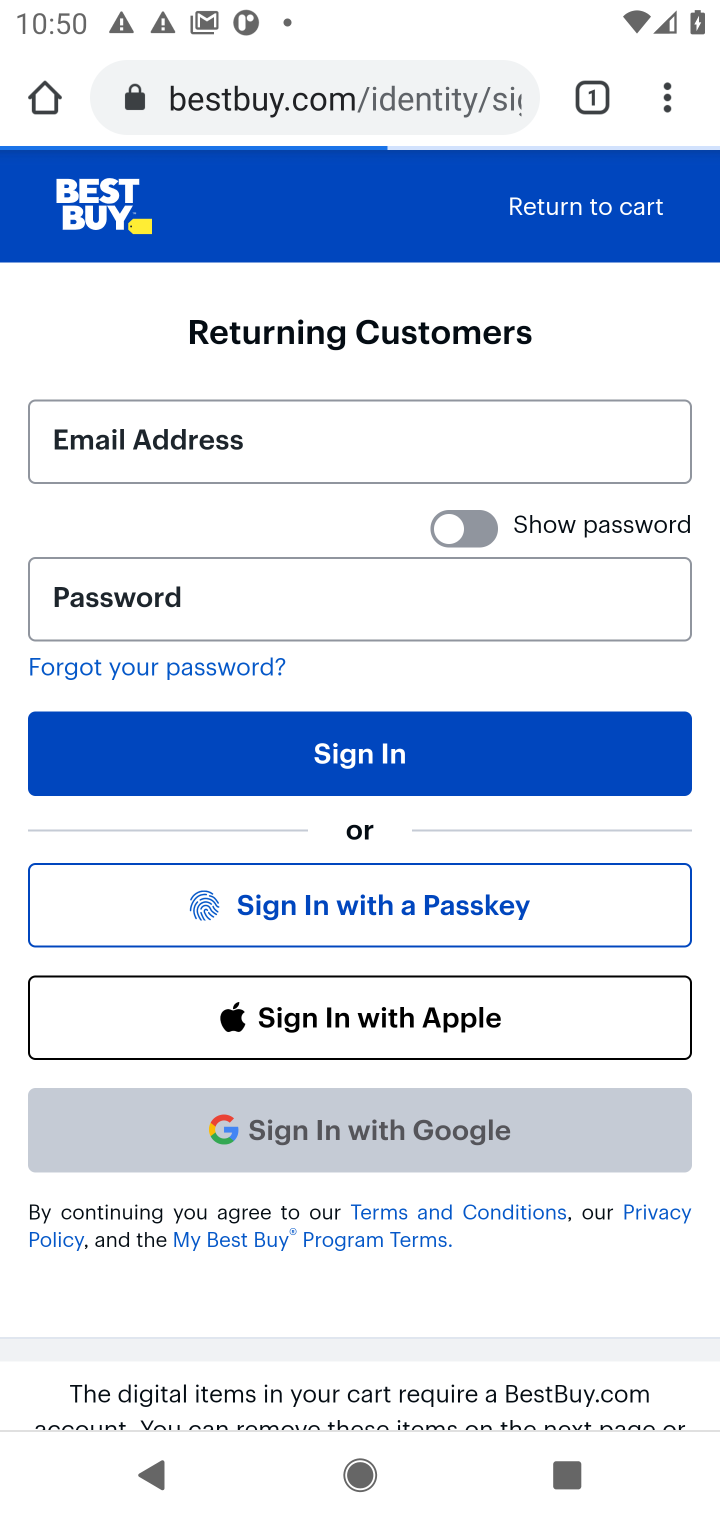
Step 31: task complete